Your task to perform on an android device: View the shopping cart on target.com. Add "razer naga" to the cart on target.com Image 0: 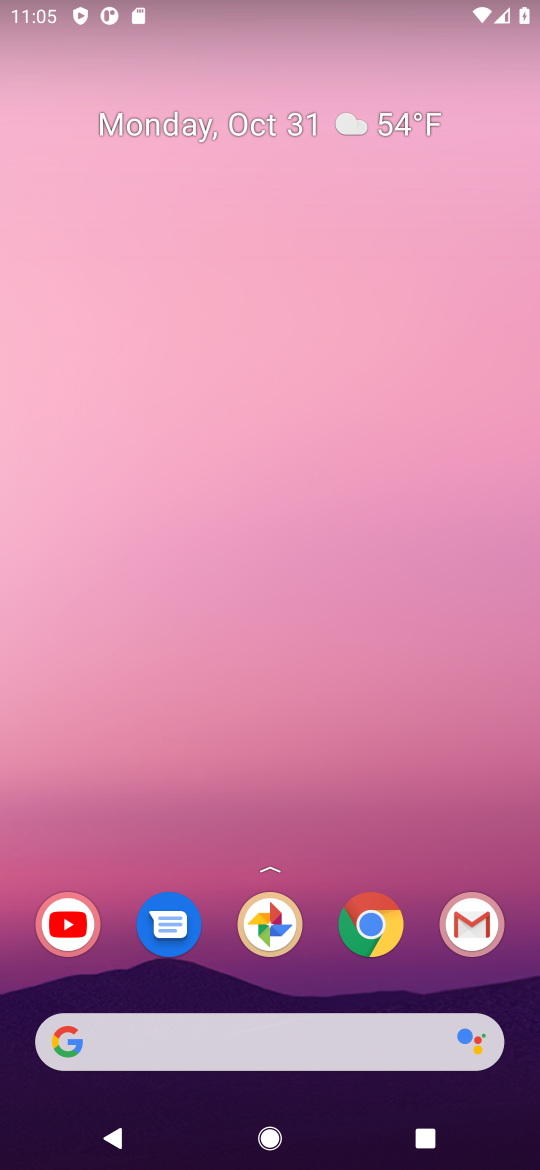
Step 0: press home button
Your task to perform on an android device: View the shopping cart on target.com. Add "razer naga" to the cart on target.com Image 1: 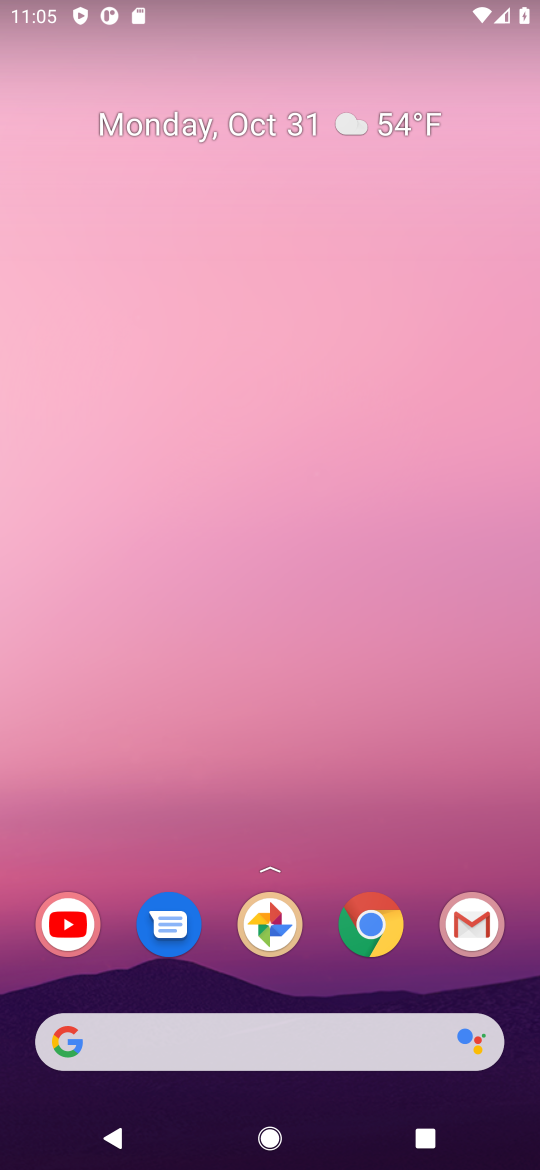
Step 1: click (381, 948)
Your task to perform on an android device: View the shopping cart on target.com. Add "razer naga" to the cart on target.com Image 2: 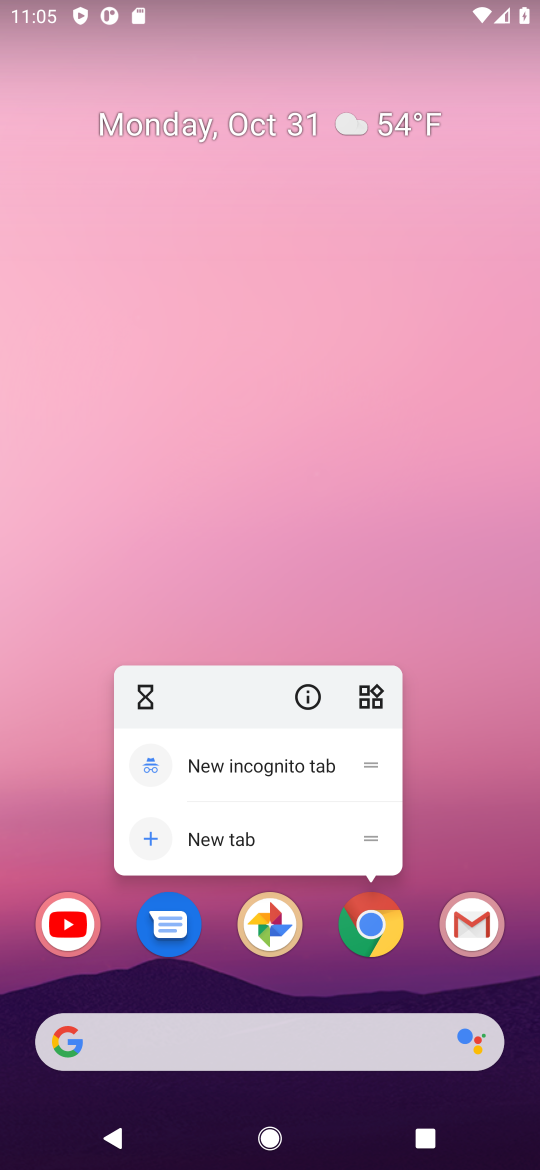
Step 2: click (243, 835)
Your task to perform on an android device: View the shopping cart on target.com. Add "razer naga" to the cart on target.com Image 3: 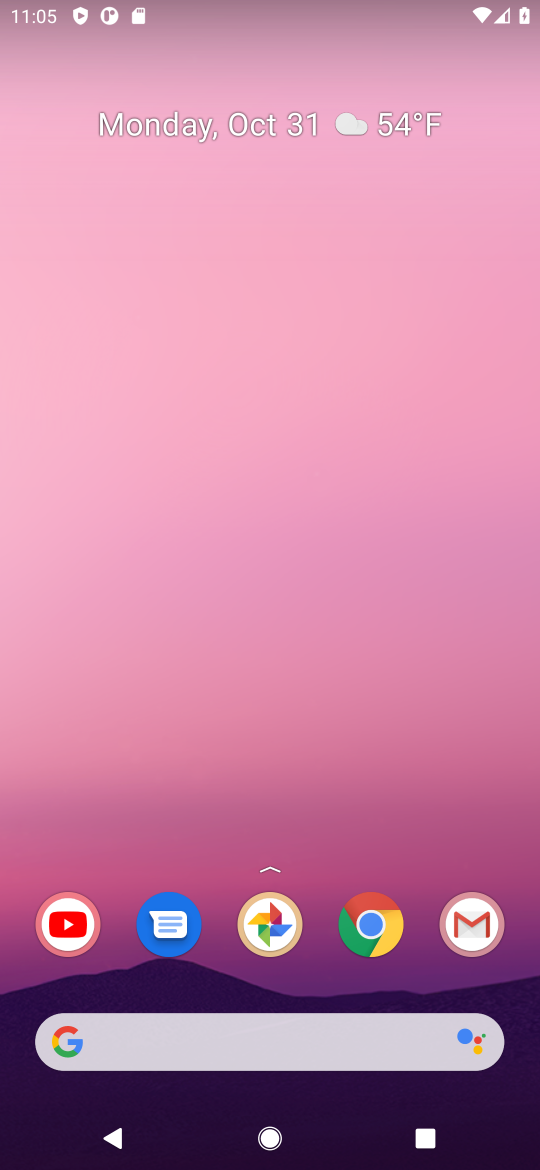
Step 3: click (385, 932)
Your task to perform on an android device: View the shopping cart on target.com. Add "razer naga" to the cart on target.com Image 4: 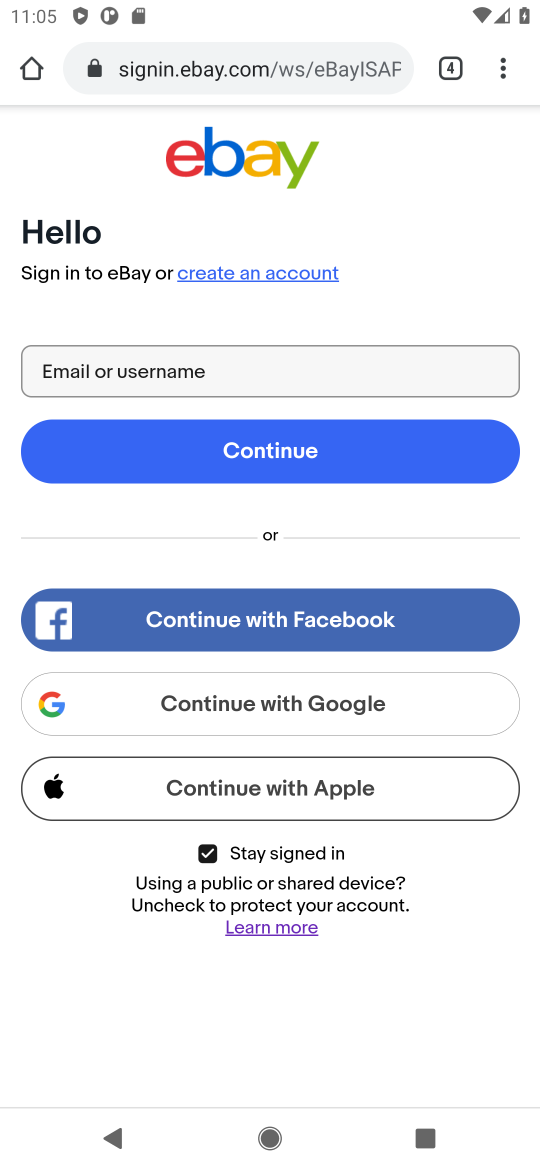
Step 4: click (262, 65)
Your task to perform on an android device: View the shopping cart on target.com. Add "razer naga" to the cart on target.com Image 5: 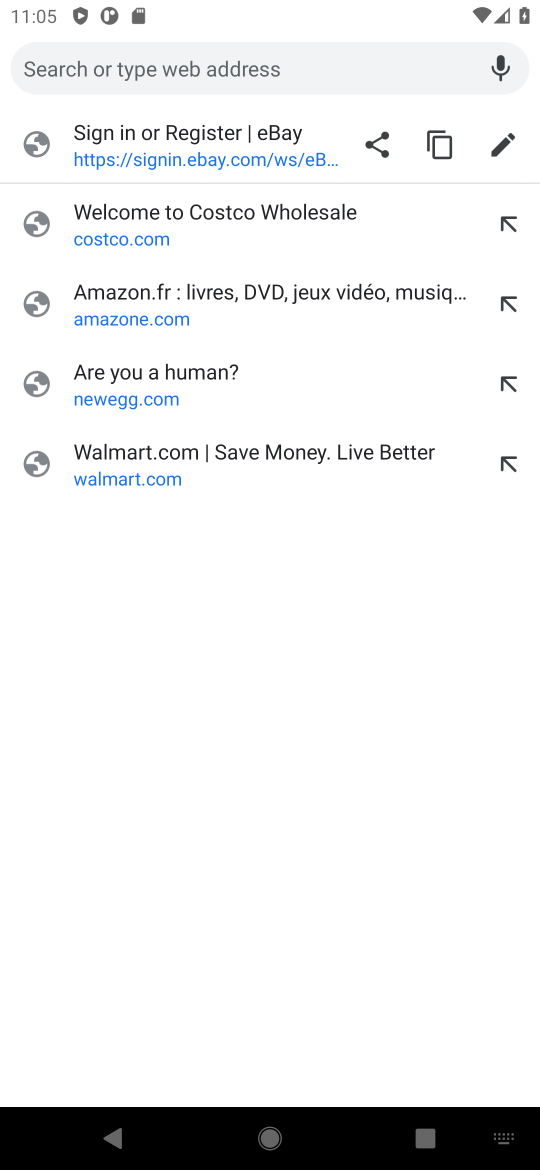
Step 5: type "target.com"
Your task to perform on an android device: View the shopping cart on target.com. Add "razer naga" to the cart on target.com Image 6: 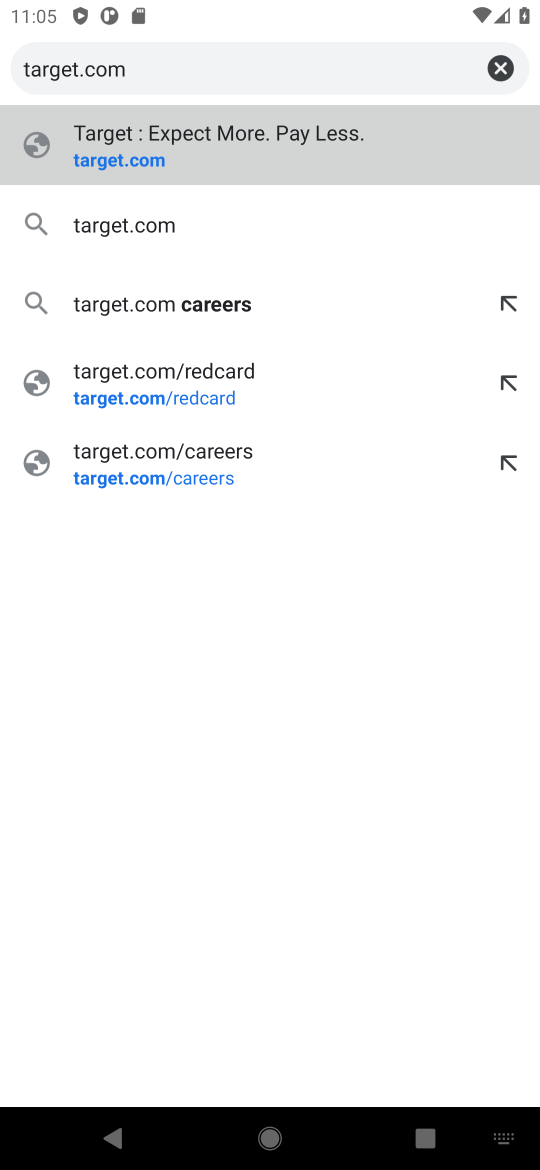
Step 6: type ""
Your task to perform on an android device: View the shopping cart on target.com. Add "razer naga" to the cart on target.com Image 7: 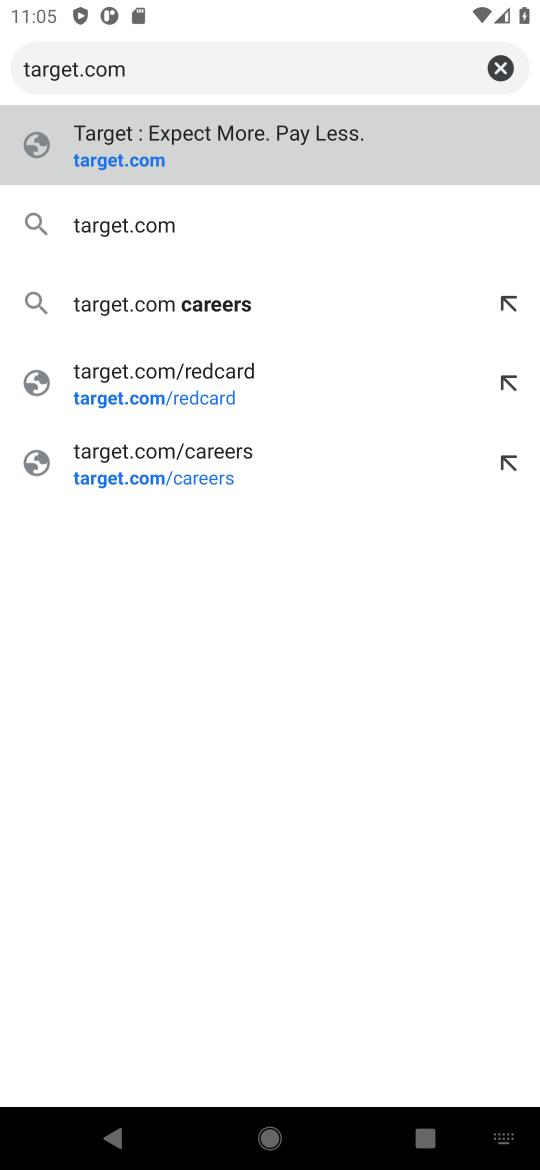
Step 7: click (265, 155)
Your task to perform on an android device: View the shopping cart on target.com. Add "razer naga" to the cart on target.com Image 8: 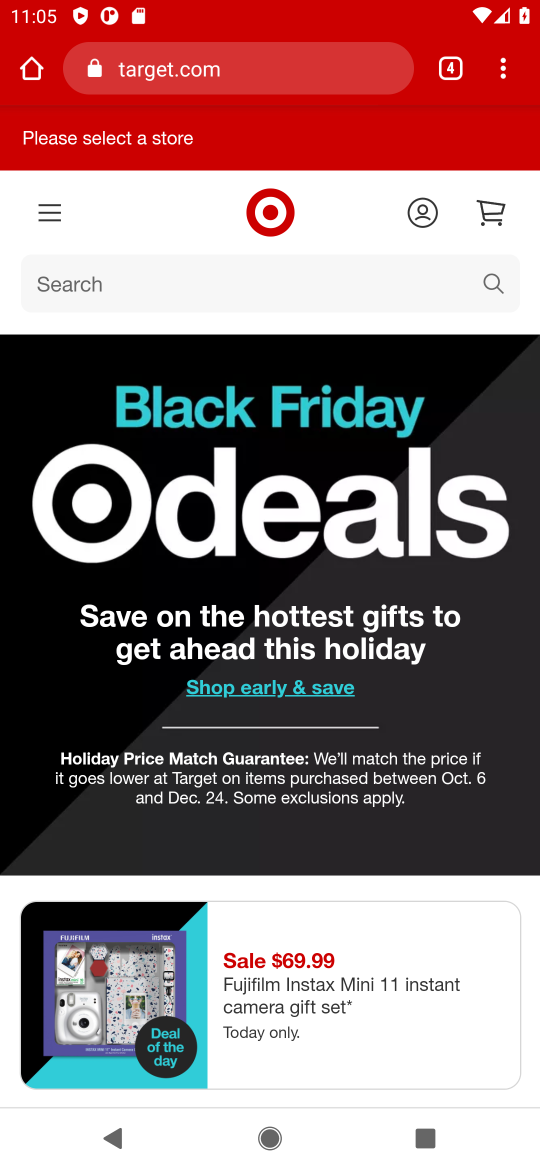
Step 8: click (213, 68)
Your task to perform on an android device: View the shopping cart on target.com. Add "razer naga" to the cart on target.com Image 9: 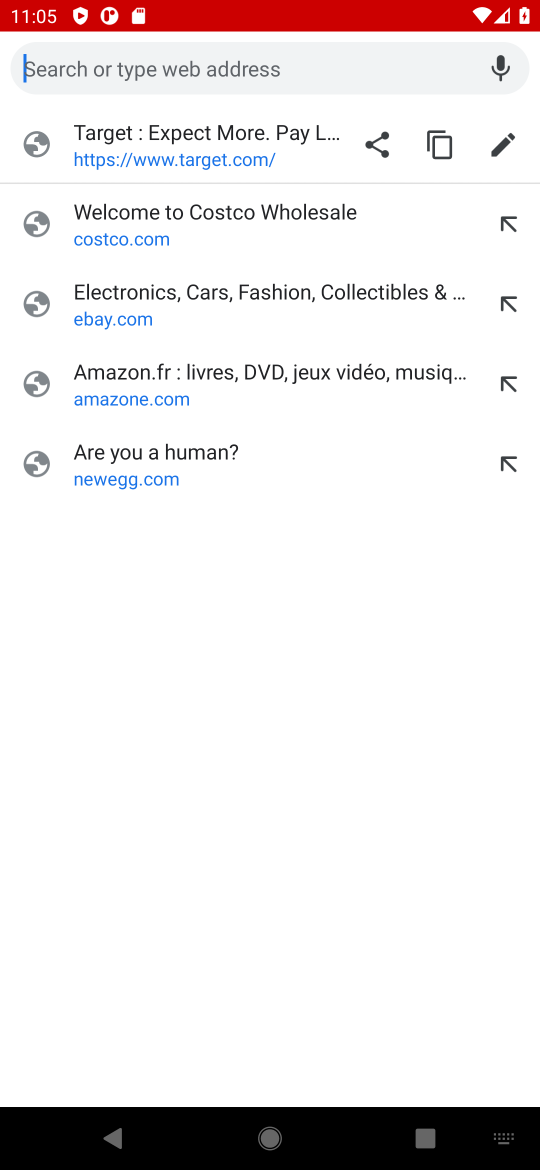
Step 9: type "razer naga"
Your task to perform on an android device: View the shopping cart on target.com. Add "razer naga" to the cart on target.com Image 10: 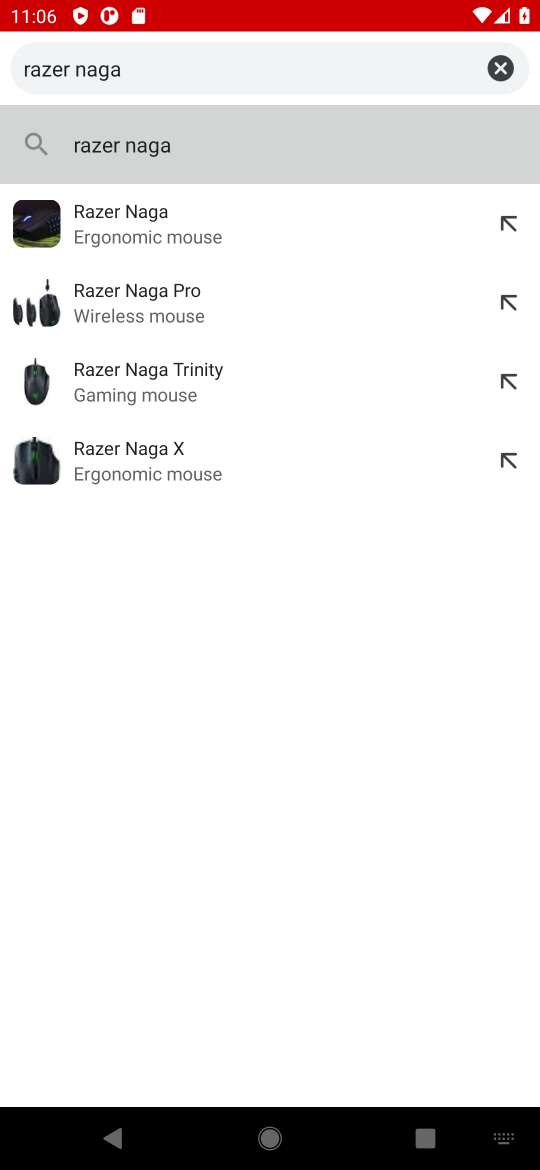
Step 10: click (169, 222)
Your task to perform on an android device: View the shopping cart on target.com. Add "razer naga" to the cart on target.com Image 11: 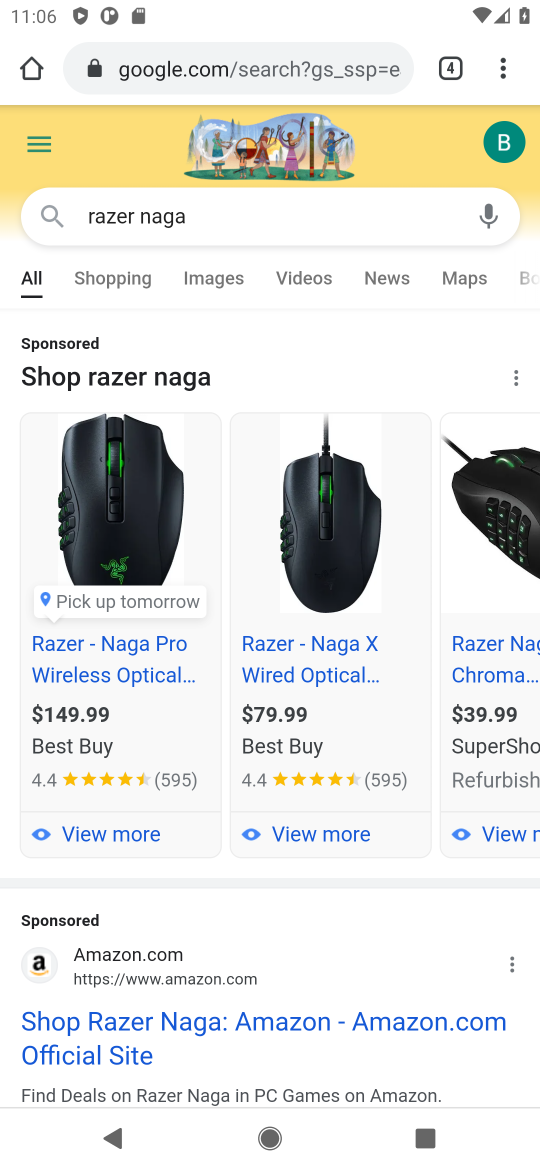
Step 11: press home button
Your task to perform on an android device: View the shopping cart on target.com. Add "razer naga" to the cart on target.com Image 12: 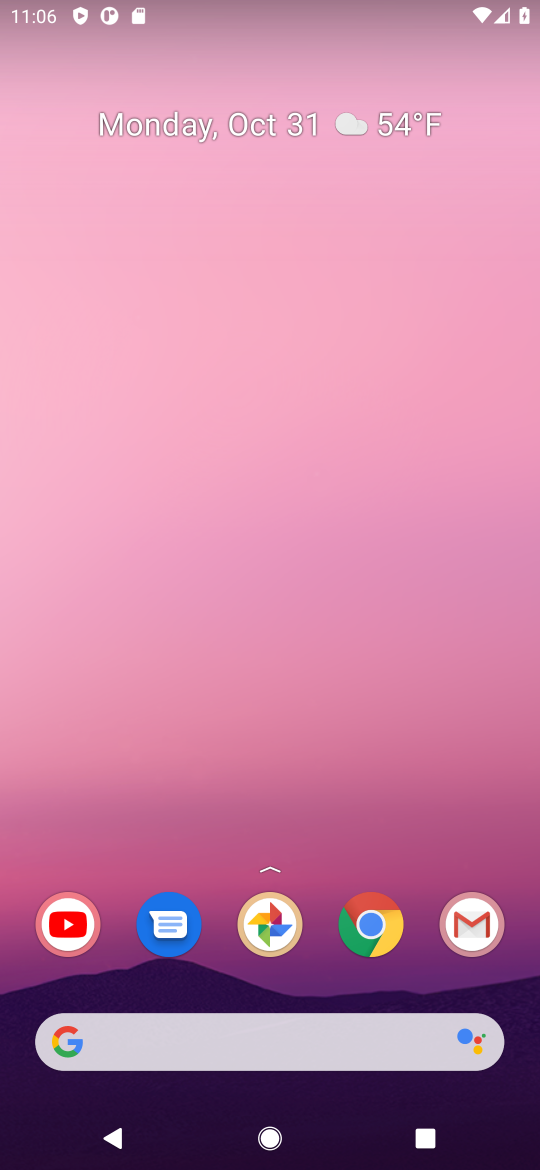
Step 12: click (382, 931)
Your task to perform on an android device: View the shopping cart on target.com. Add "razer naga" to the cart on target.com Image 13: 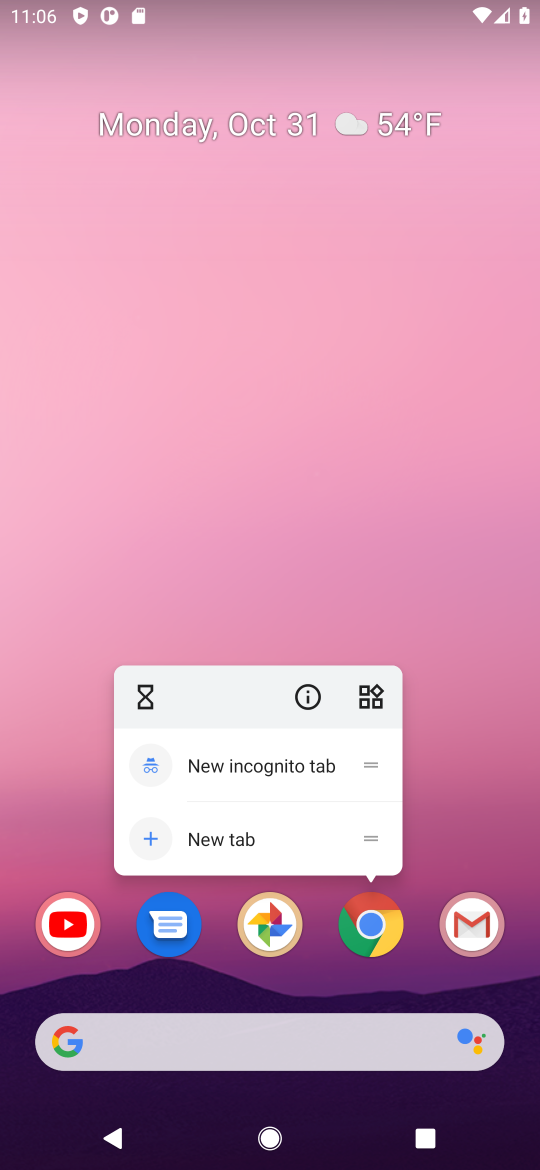
Step 13: click (218, 833)
Your task to perform on an android device: View the shopping cart on target.com. Add "razer naga" to the cart on target.com Image 14: 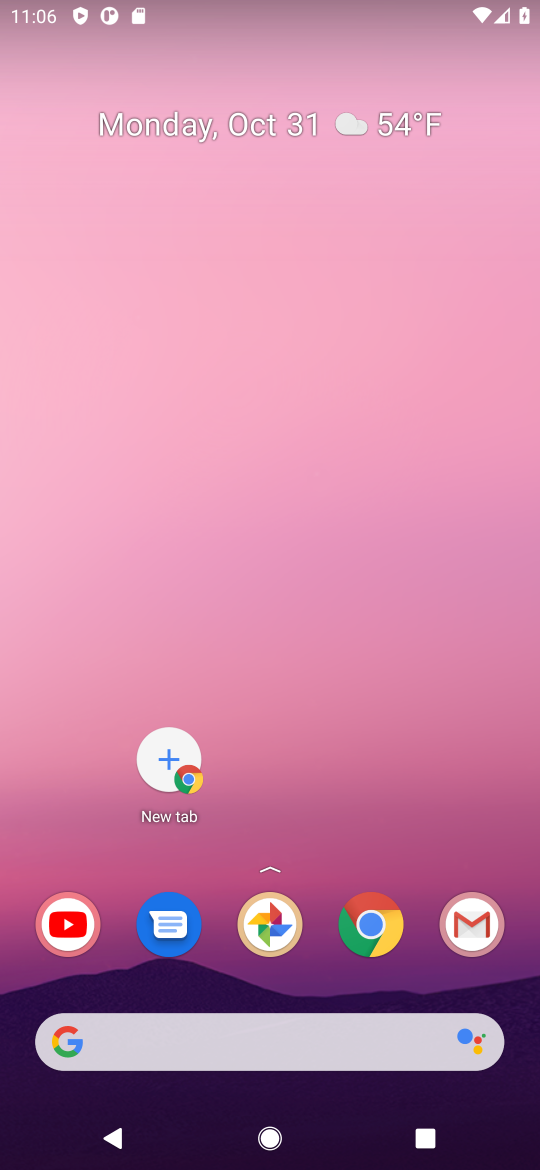
Step 14: click (188, 774)
Your task to perform on an android device: View the shopping cart on target.com. Add "razer naga" to the cart on target.com Image 15: 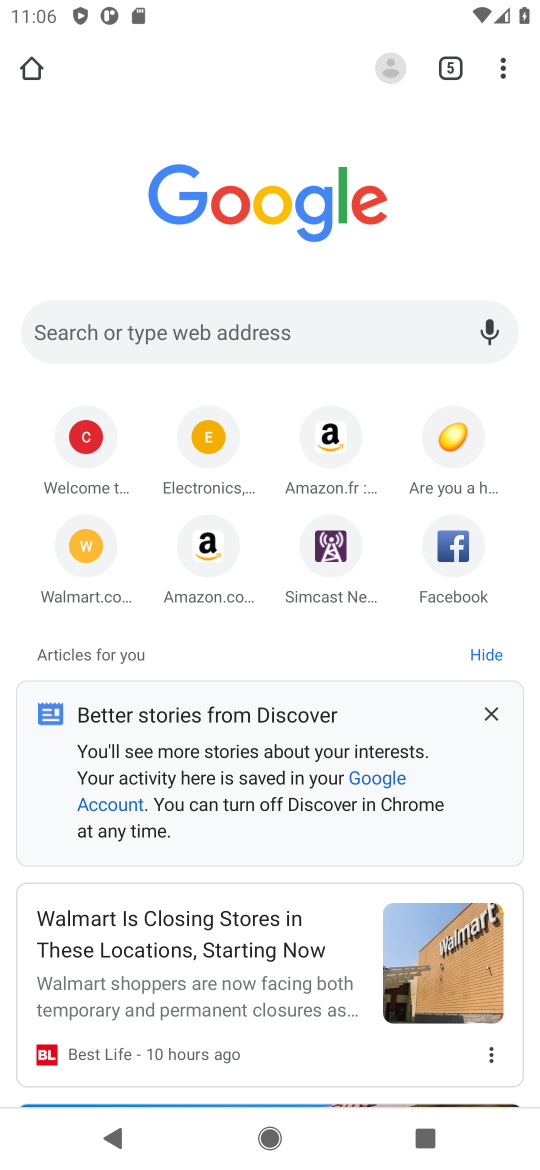
Step 15: click (254, 336)
Your task to perform on an android device: View the shopping cart on target.com. Add "razer naga" to the cart on target.com Image 16: 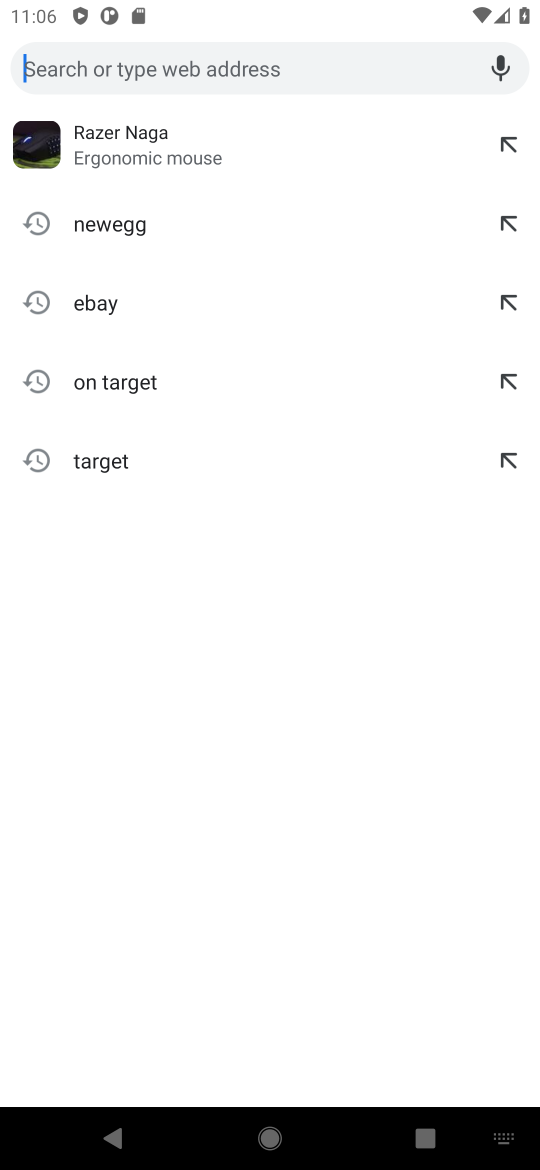
Step 16: type "target.com"
Your task to perform on an android device: View the shopping cart on target.com. Add "razer naga" to the cart on target.com Image 17: 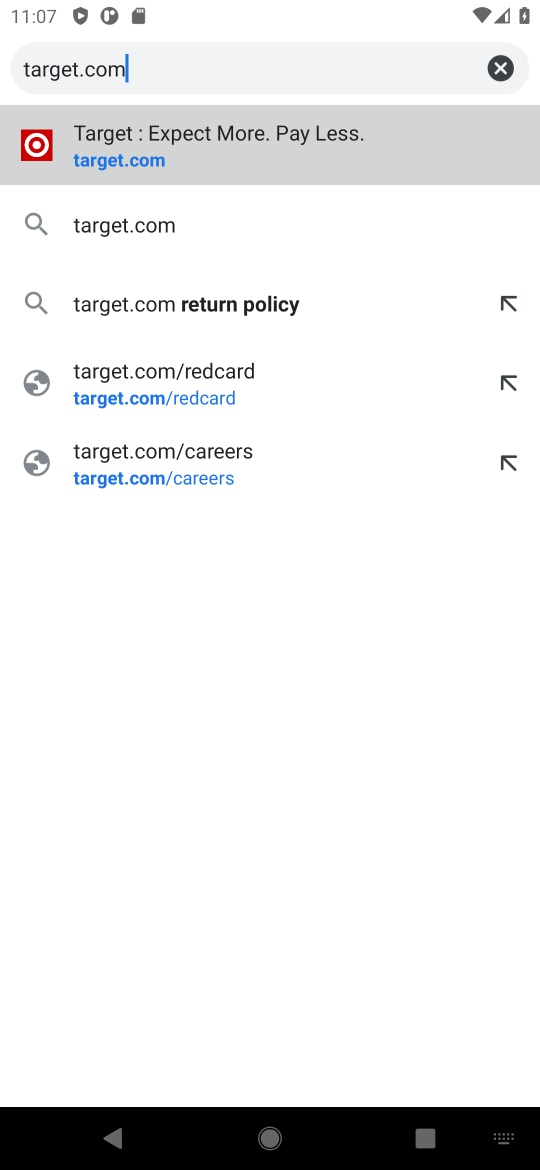
Step 17: click (186, 155)
Your task to perform on an android device: View the shopping cart on target.com. Add "razer naga" to the cart on target.com Image 18: 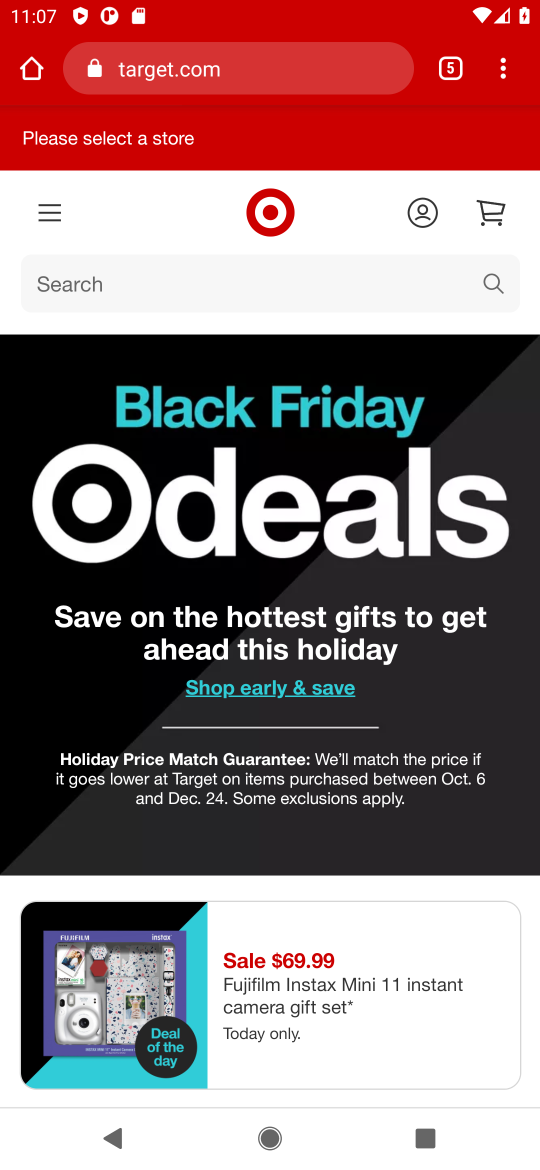
Step 18: click (101, 296)
Your task to perform on an android device: View the shopping cart on target.com. Add "razer naga" to the cart on target.com Image 19: 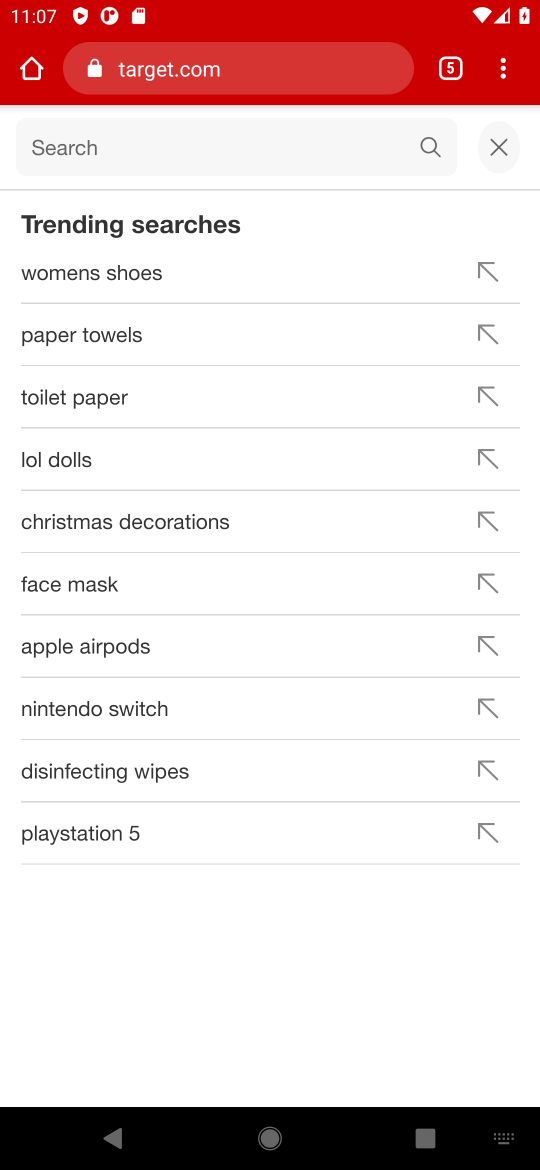
Step 19: type "razer naga"
Your task to perform on an android device: View the shopping cart on target.com. Add "razer naga" to the cart on target.com Image 20: 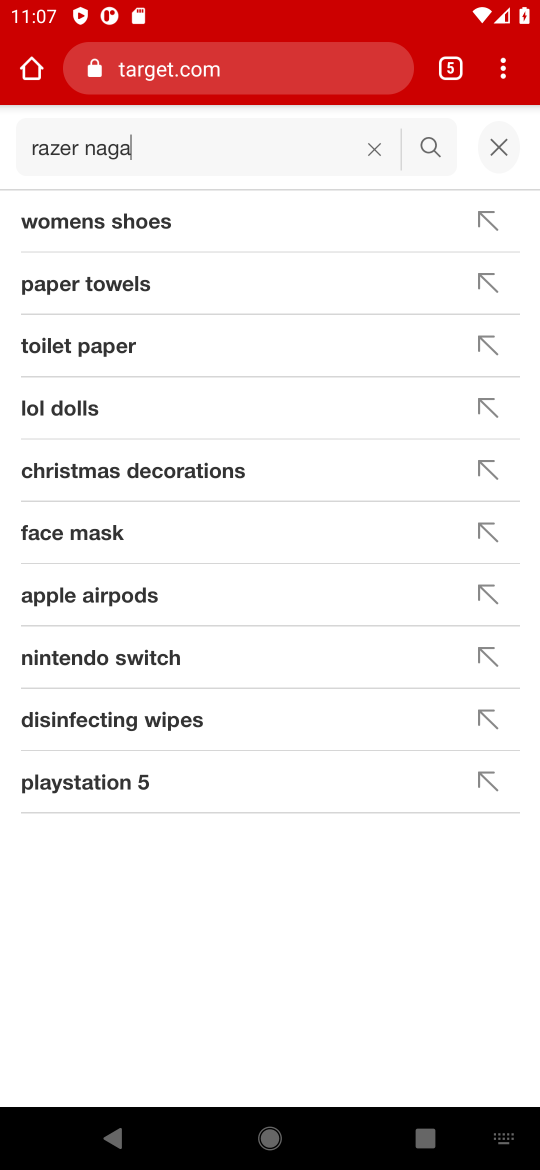
Step 20: type ""
Your task to perform on an android device: View the shopping cart on target.com. Add "razer naga" to the cart on target.com Image 21: 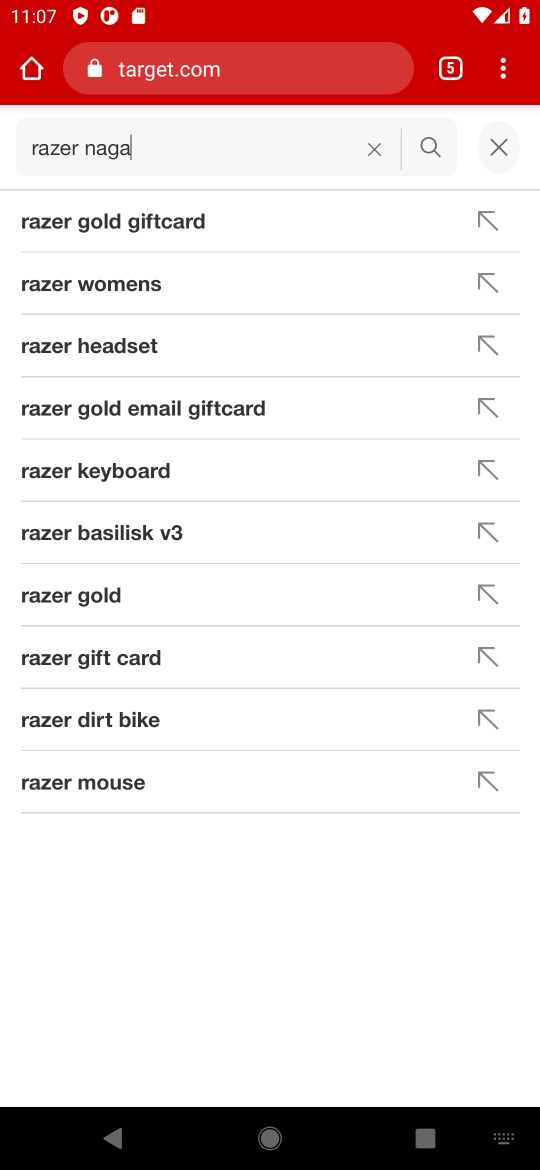
Step 21: click (140, 236)
Your task to perform on an android device: View the shopping cart on target.com. Add "razer naga" to the cart on target.com Image 22: 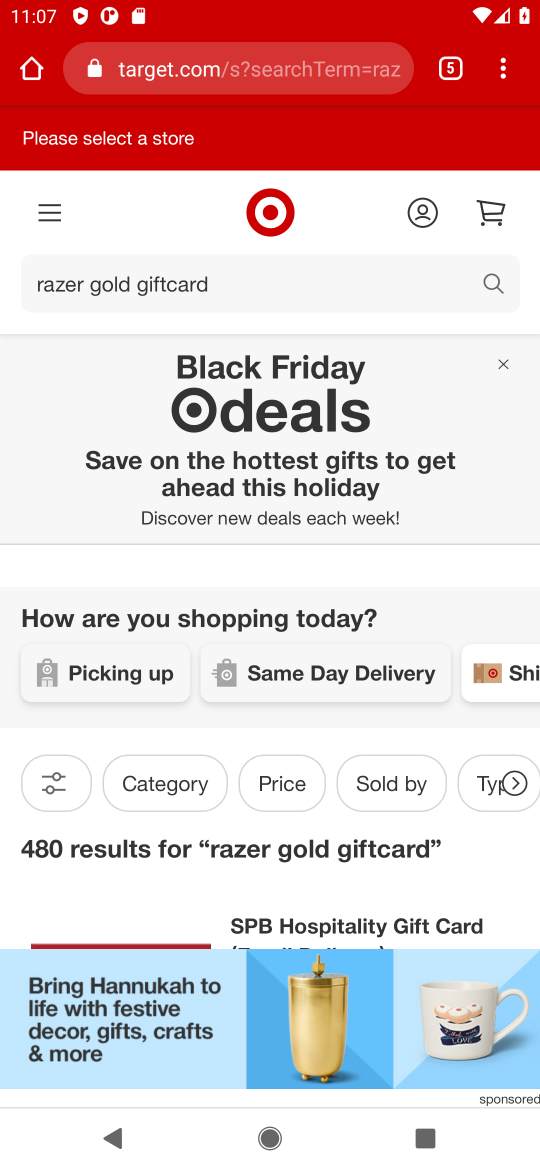
Step 22: drag from (309, 781) to (379, 421)
Your task to perform on an android device: View the shopping cart on target.com. Add "razer naga" to the cart on target.com Image 23: 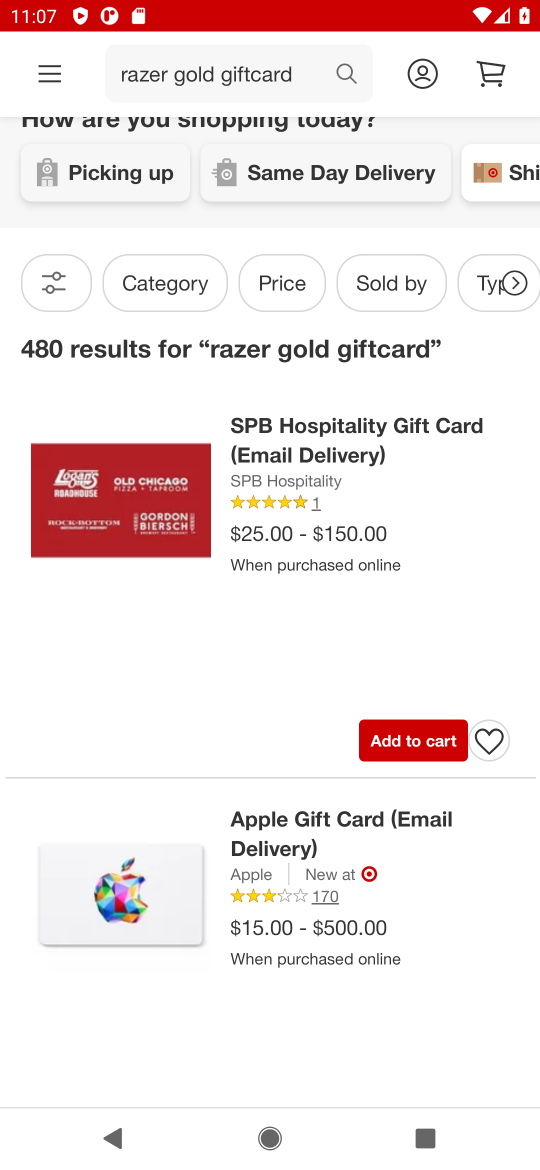
Step 23: drag from (306, 596) to (331, 342)
Your task to perform on an android device: View the shopping cart on target.com. Add "razer naga" to the cart on target.com Image 24: 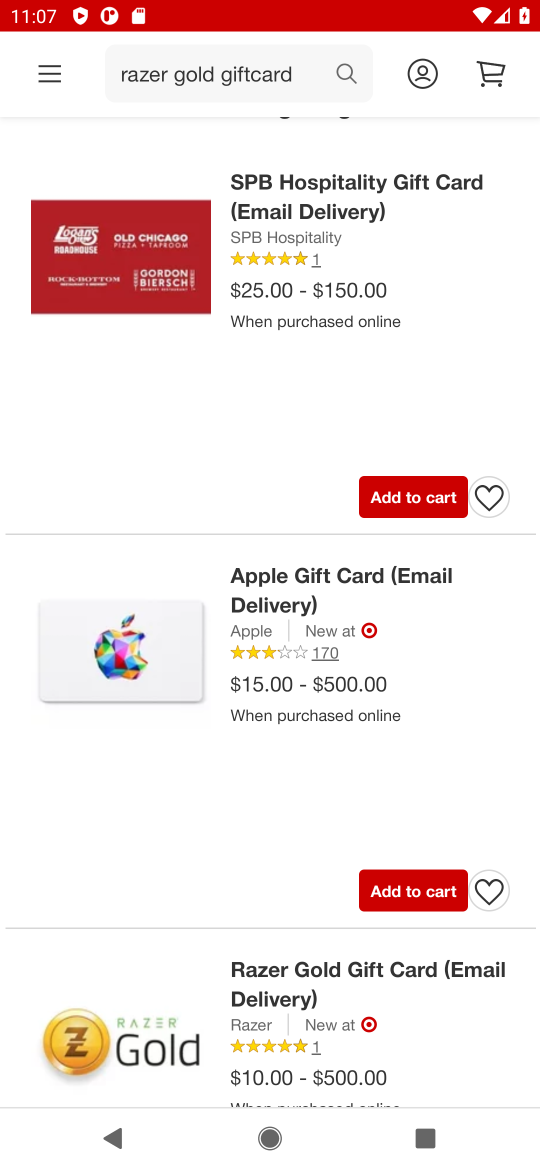
Step 24: drag from (249, 770) to (286, 512)
Your task to perform on an android device: View the shopping cart on target.com. Add "razer naga" to the cart on target.com Image 25: 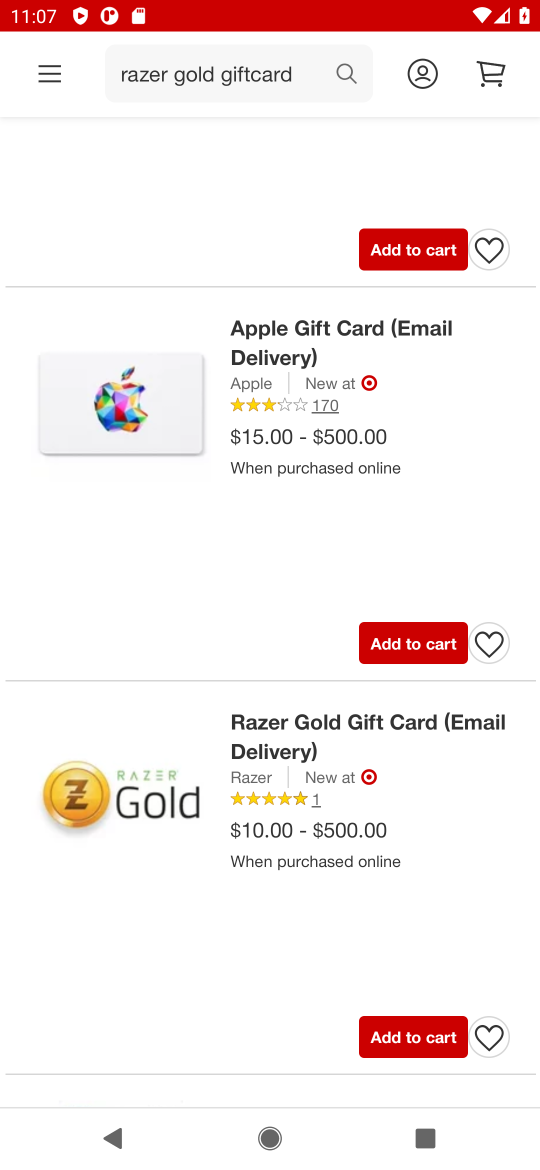
Step 25: drag from (286, 872) to (353, 649)
Your task to perform on an android device: View the shopping cart on target.com. Add "razer naga" to the cart on target.com Image 26: 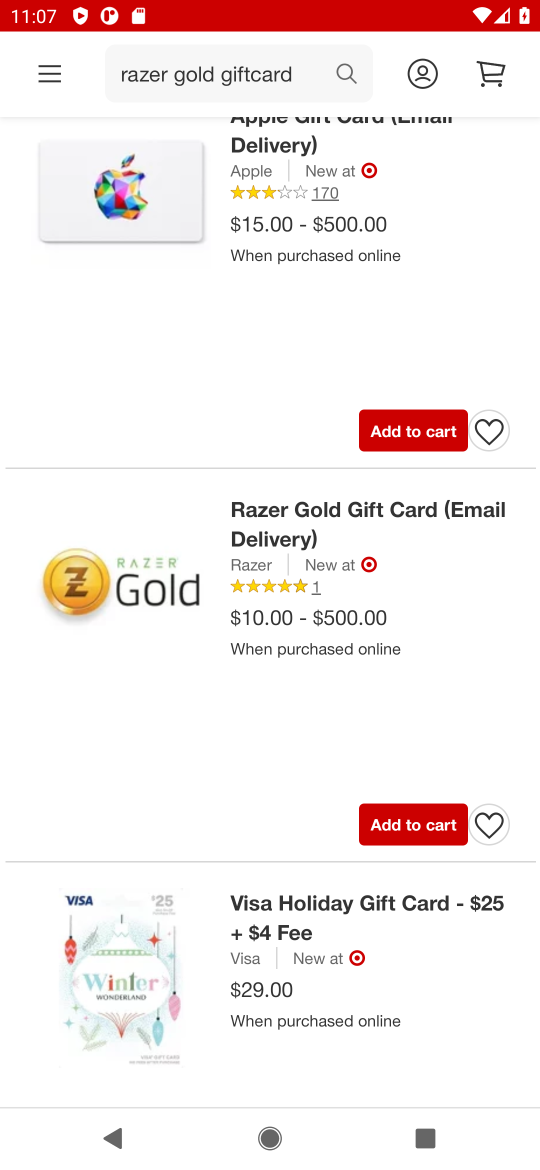
Step 26: click (294, 73)
Your task to perform on an android device: View the shopping cart on target.com. Add "razer naga" to the cart on target.com Image 27: 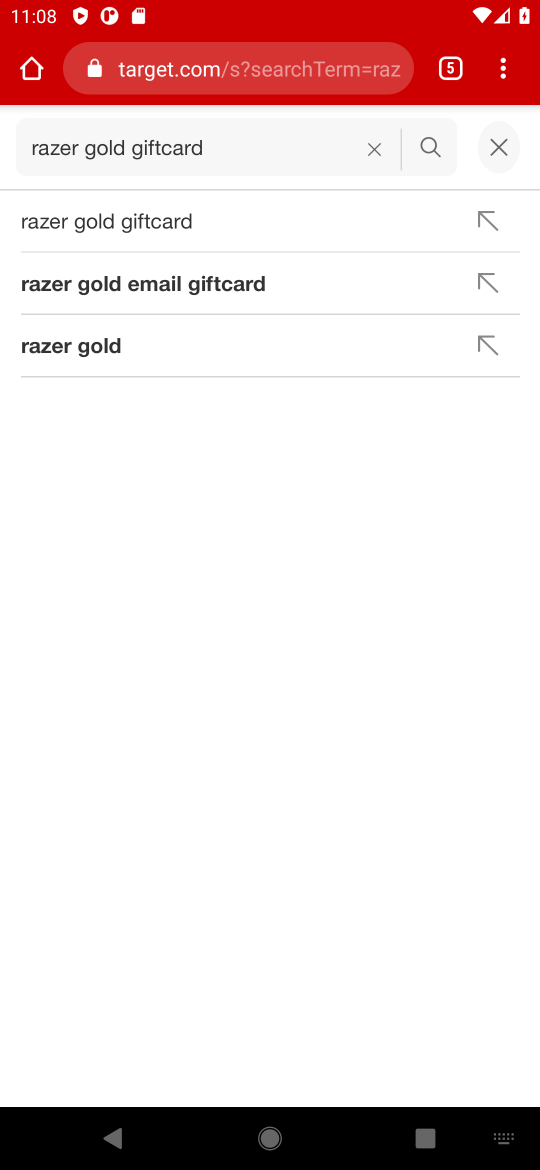
Step 27: click (499, 157)
Your task to perform on an android device: View the shopping cart on target.com. Add "razer naga" to the cart on target.com Image 28: 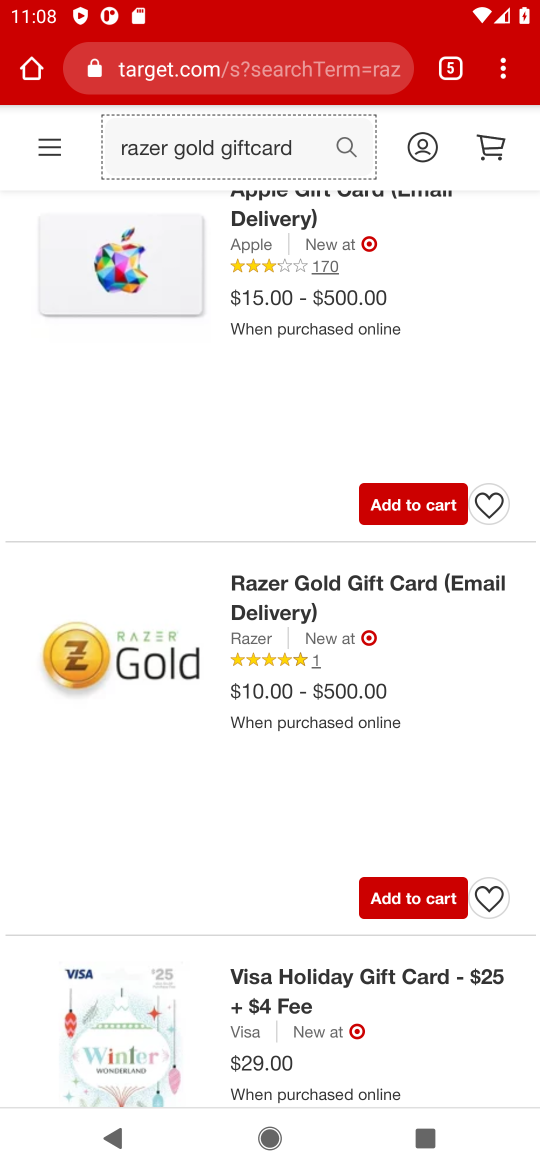
Step 28: drag from (286, 550) to (292, 139)
Your task to perform on an android device: View the shopping cart on target.com. Add "razer naga" to the cart on target.com Image 29: 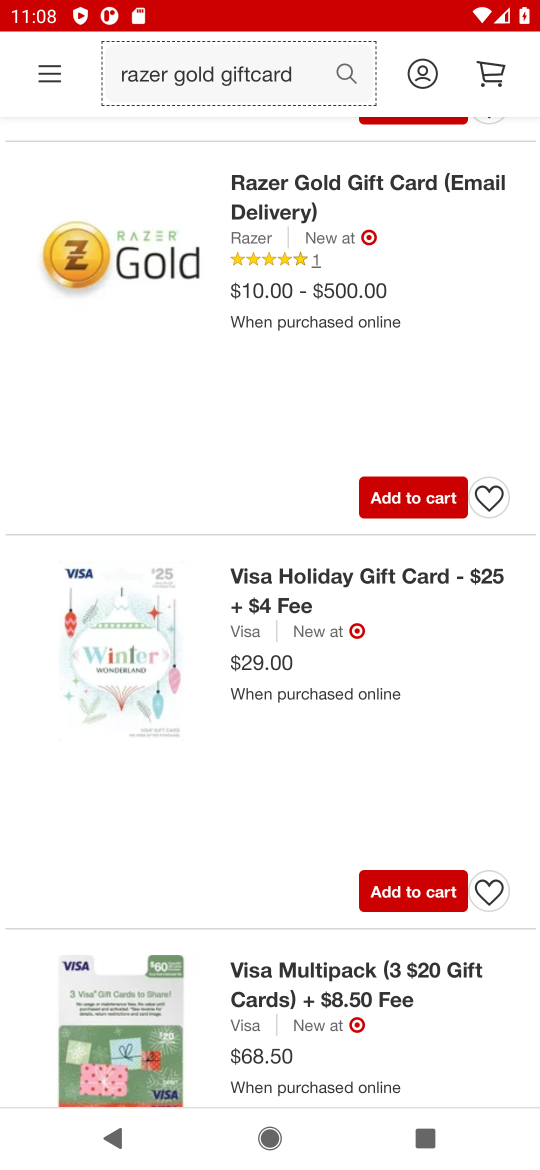
Step 29: drag from (232, 211) to (238, 708)
Your task to perform on an android device: View the shopping cart on target.com. Add "razer naga" to the cart on target.com Image 30: 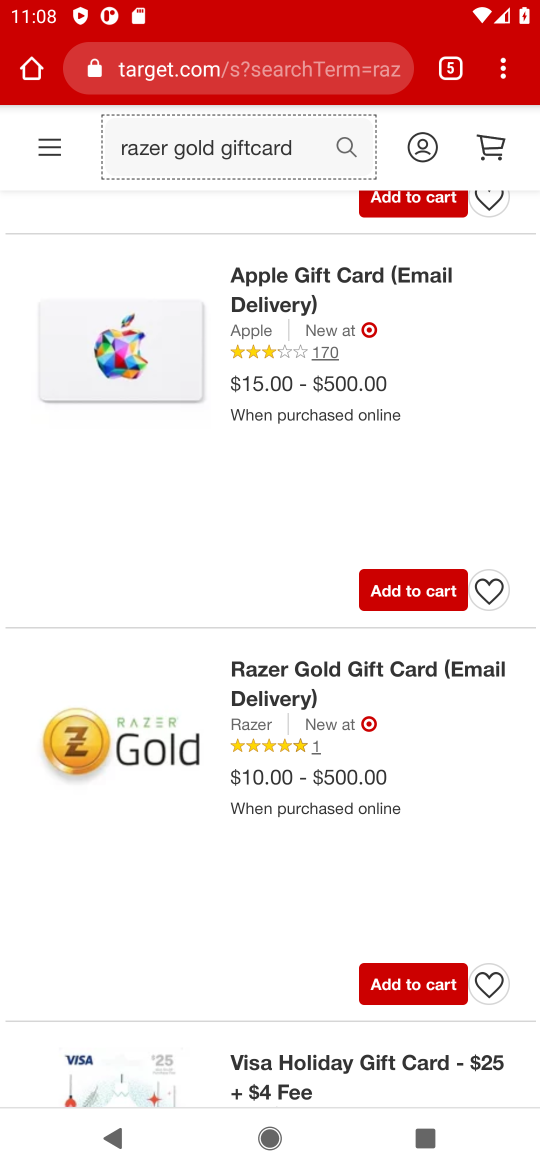
Step 30: click (227, 144)
Your task to perform on an android device: View the shopping cart on target.com. Add "razer naga" to the cart on target.com Image 31: 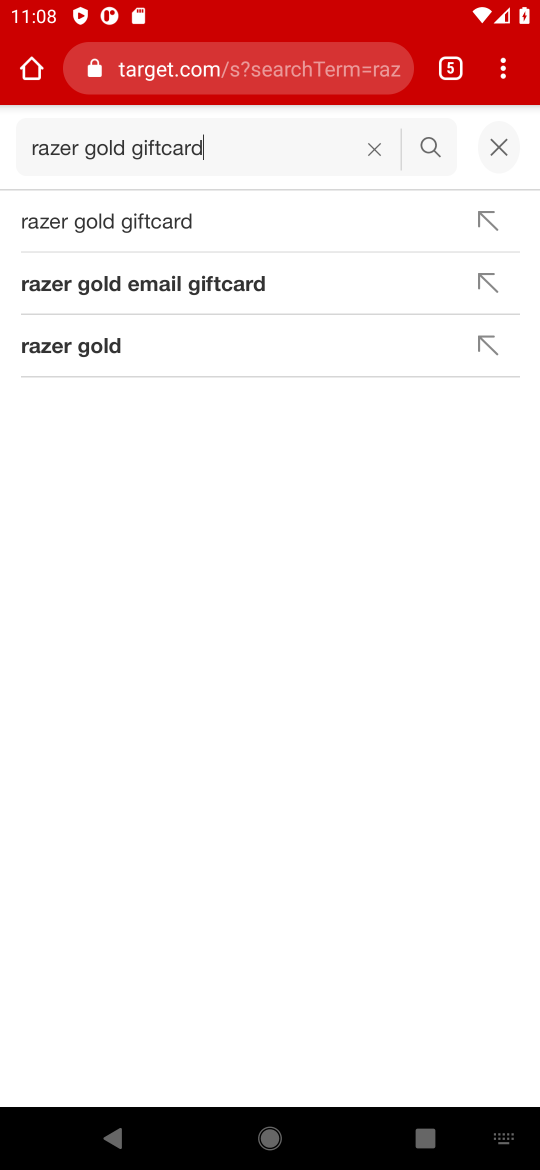
Step 31: click (375, 147)
Your task to perform on an android device: View the shopping cart on target.com. Add "razer naga" to the cart on target.com Image 32: 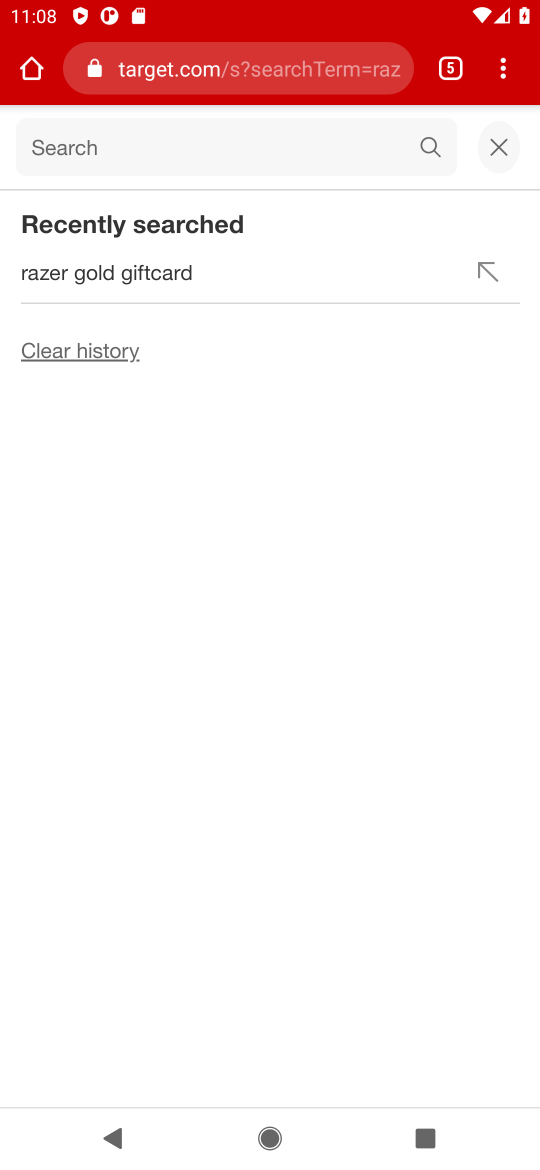
Step 32: type "razer naga"
Your task to perform on an android device: View the shopping cart on target.com. Add "razer naga" to the cart on target.com Image 33: 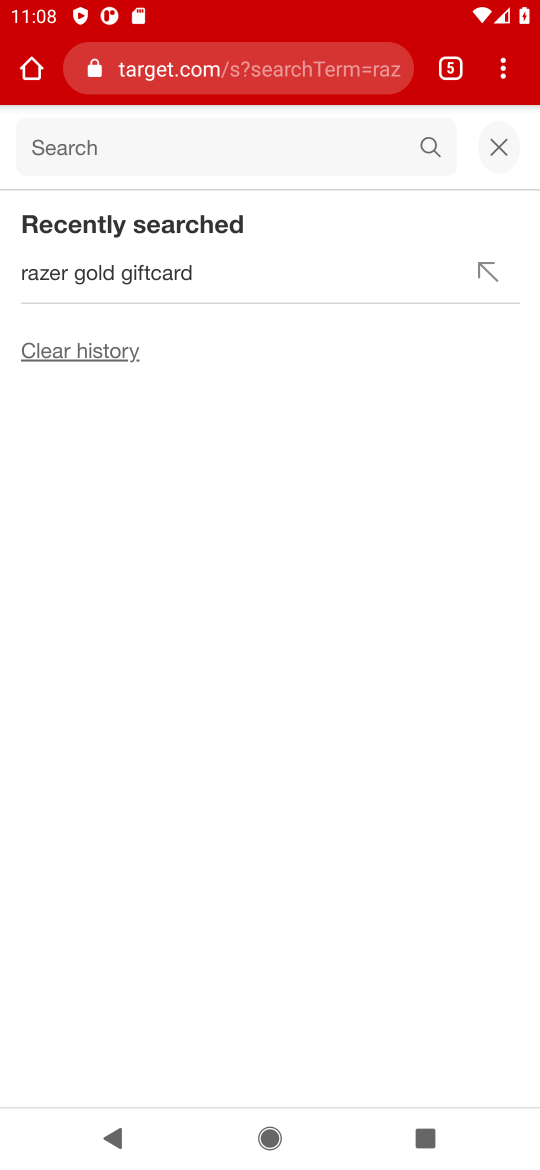
Step 33: click (217, 144)
Your task to perform on an android device: View the shopping cart on target.com. Add "razer naga" to the cart on target.com Image 34: 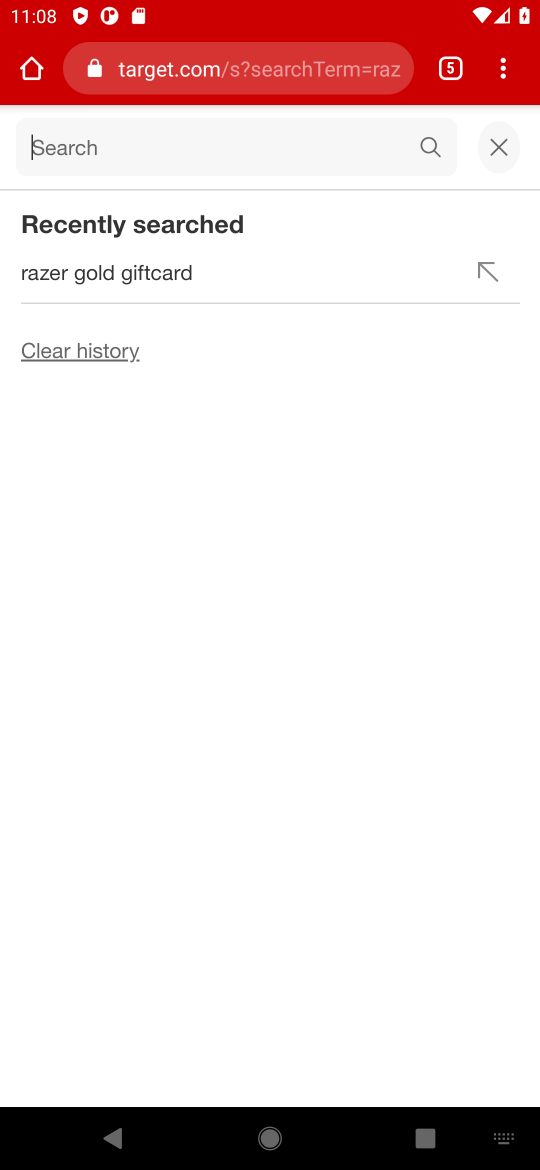
Step 34: click (100, 347)
Your task to perform on an android device: View the shopping cart on target.com. Add "razer naga" to the cart on target.com Image 35: 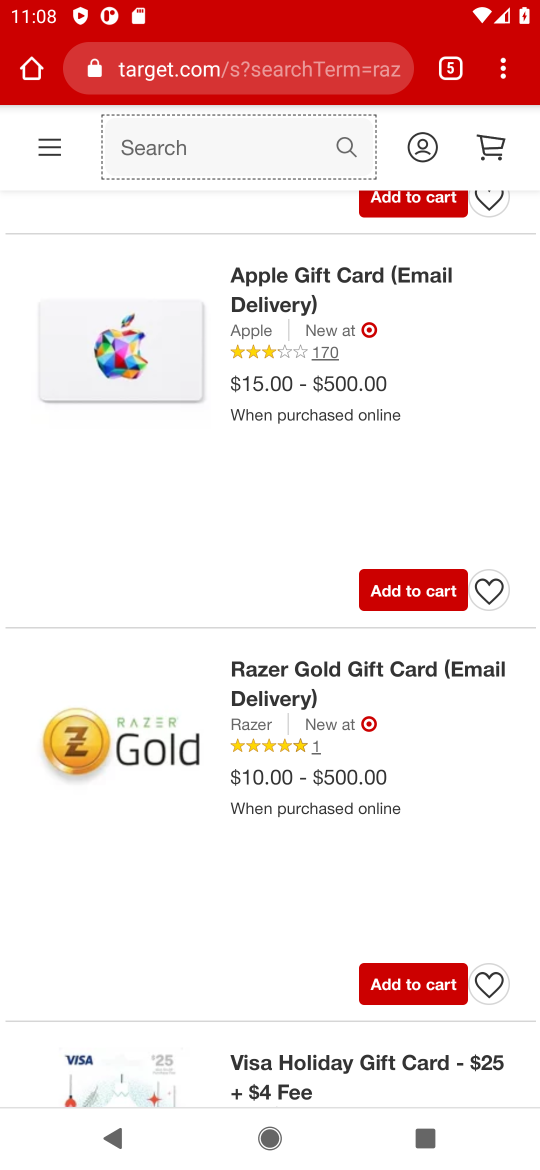
Step 35: click (234, 132)
Your task to perform on an android device: View the shopping cart on target.com. Add "razer naga" to the cart on target.com Image 36: 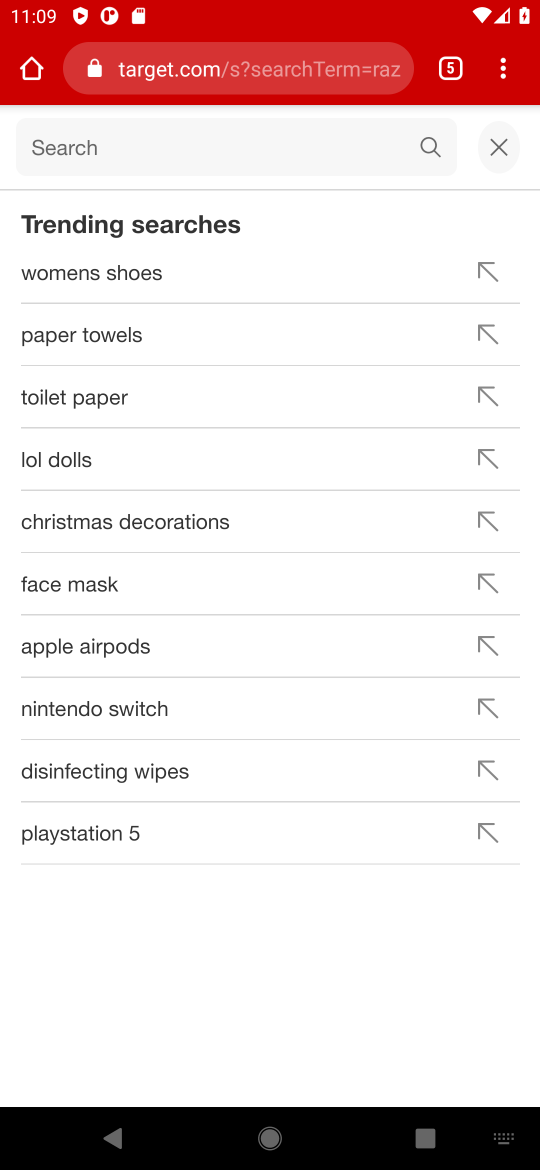
Step 36: type "razer naga"
Your task to perform on an android device: View the shopping cart on target.com. Add "razer naga" to the cart on target.com Image 37: 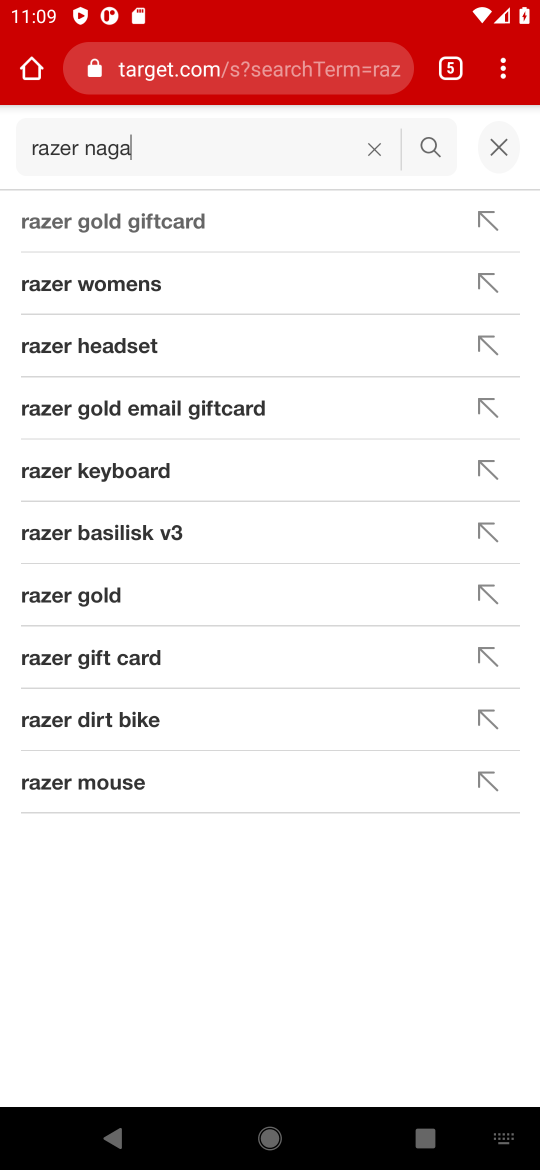
Step 37: type ""
Your task to perform on an android device: View the shopping cart on target.com. Add "razer naga" to the cart on target.com Image 38: 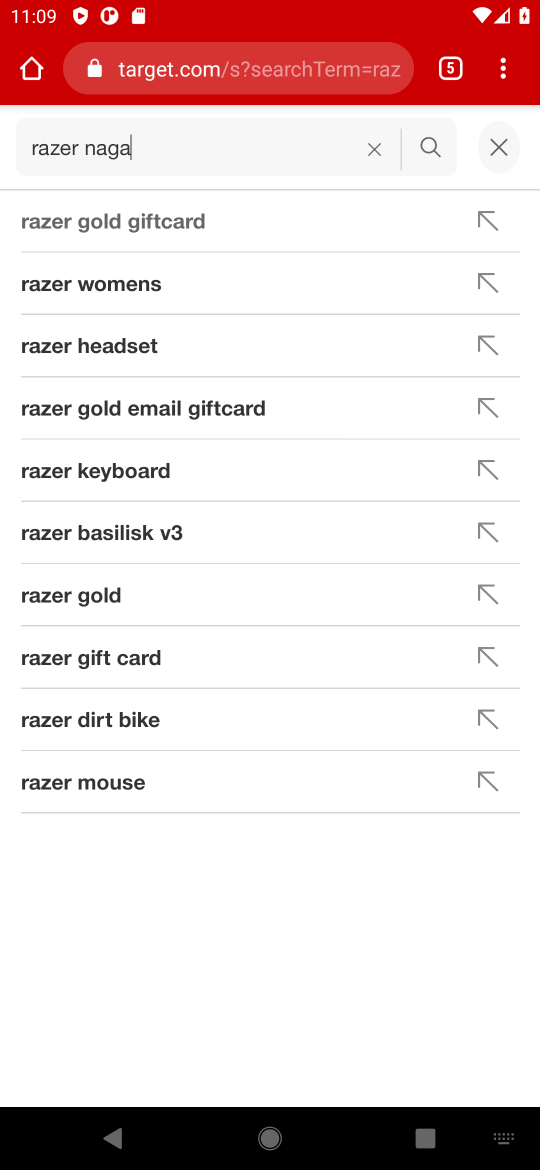
Step 38: click (195, 349)
Your task to perform on an android device: View the shopping cart on target.com. Add "razer naga" to the cart on target.com Image 39: 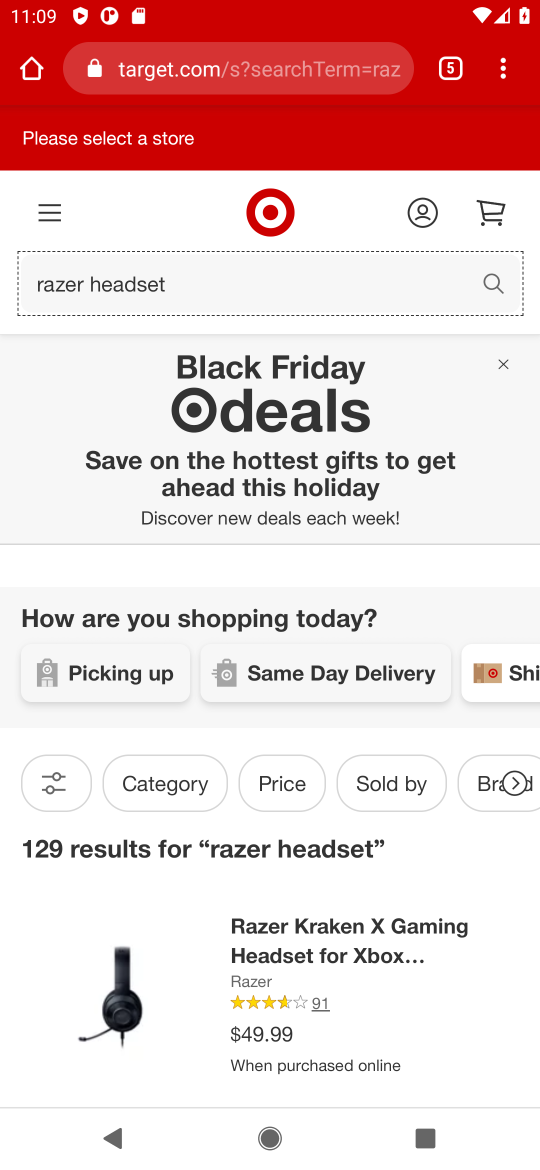
Step 39: drag from (286, 743) to (349, 452)
Your task to perform on an android device: View the shopping cart on target.com. Add "razer naga" to the cart on target.com Image 40: 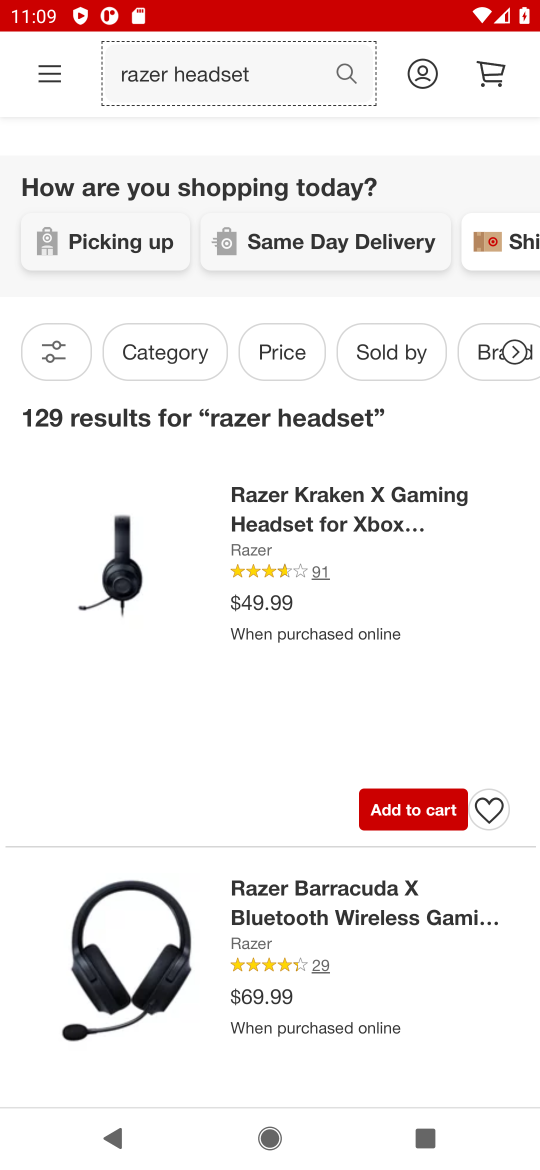
Step 40: click (310, 519)
Your task to perform on an android device: View the shopping cart on target.com. Add "razer naga" to the cart on target.com Image 41: 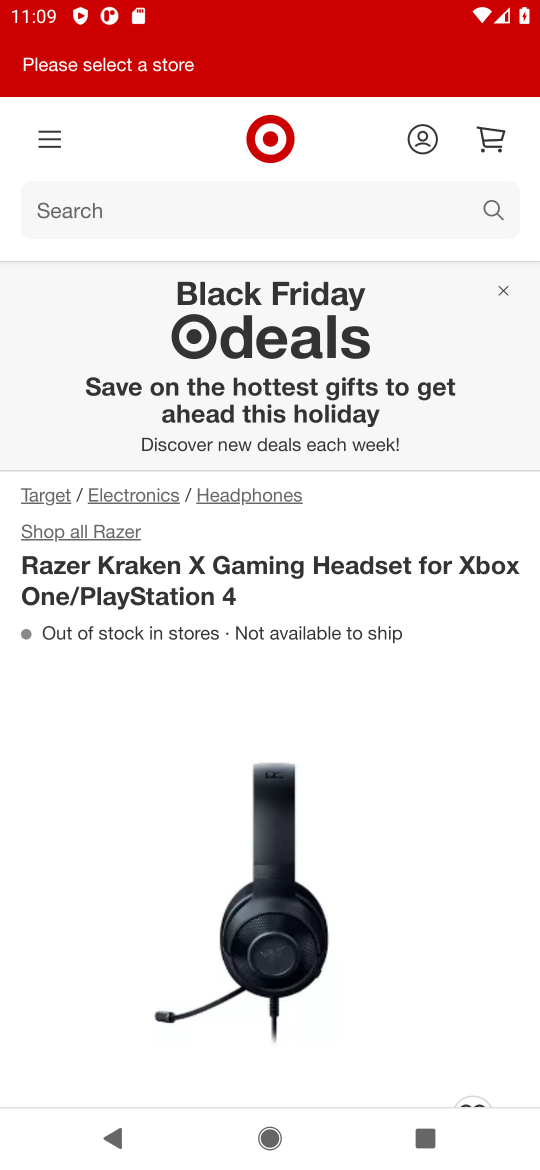
Step 41: drag from (290, 766) to (357, 450)
Your task to perform on an android device: View the shopping cart on target.com. Add "razer naga" to the cart on target.com Image 42: 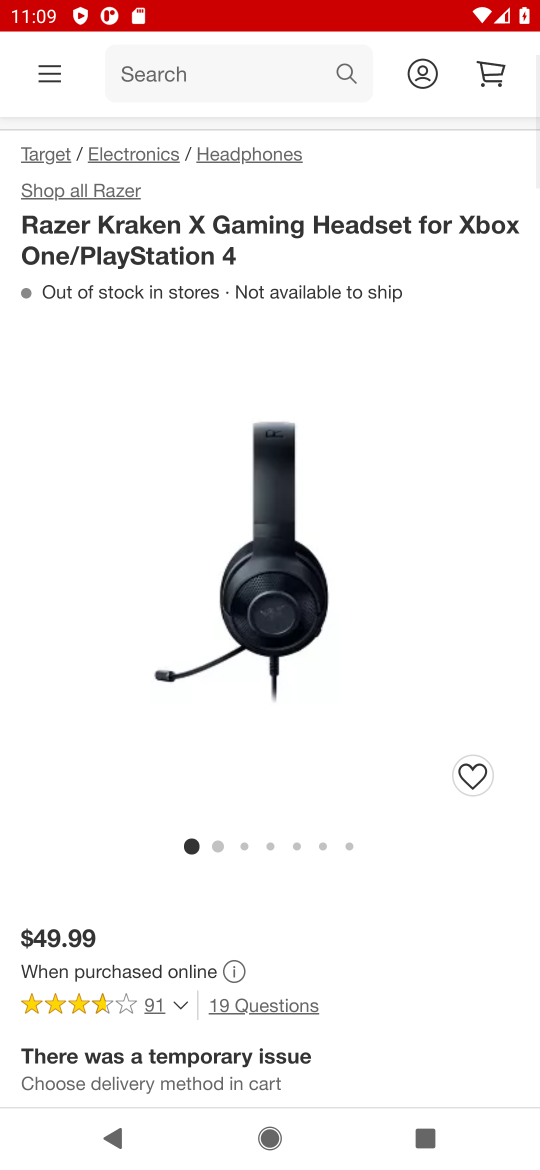
Step 42: drag from (268, 795) to (353, 428)
Your task to perform on an android device: View the shopping cart on target.com. Add "razer naga" to the cart on target.com Image 43: 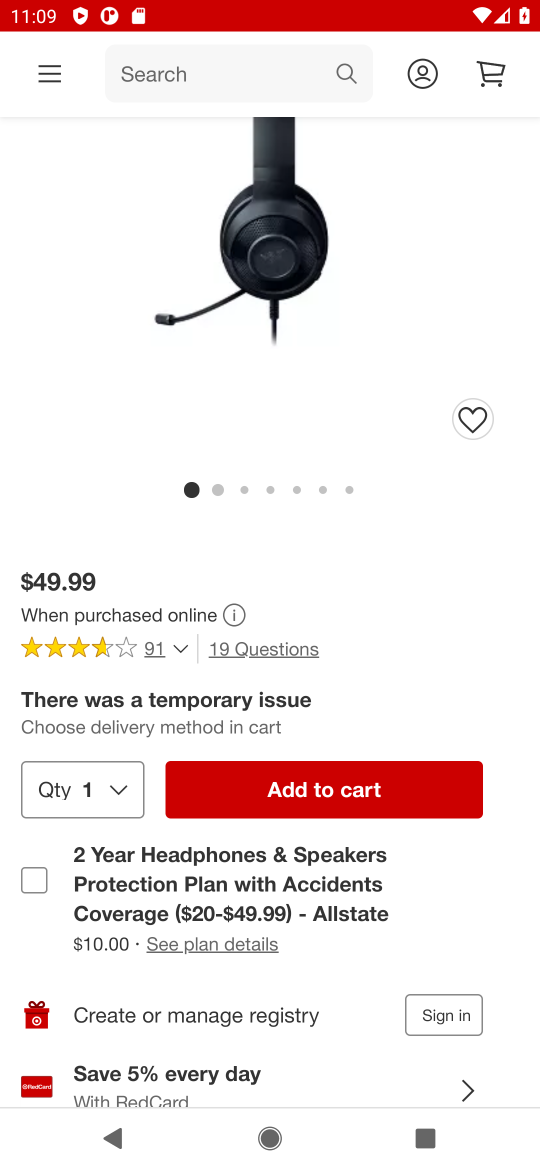
Step 43: click (321, 799)
Your task to perform on an android device: View the shopping cart on target.com. Add "razer naga" to the cart on target.com Image 44: 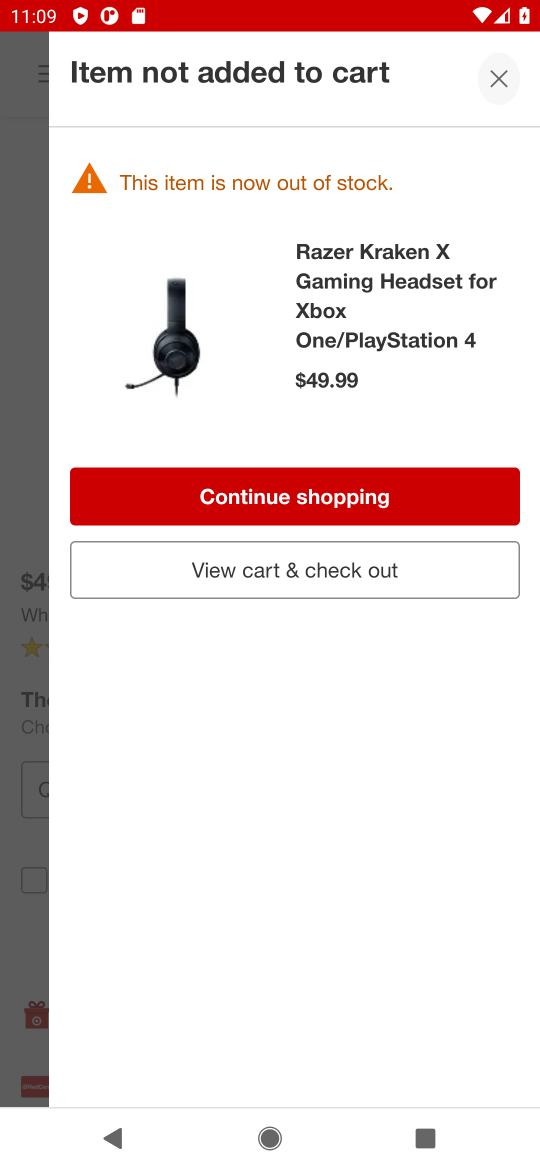
Step 44: click (496, 67)
Your task to perform on an android device: View the shopping cart on target.com. Add "razer naga" to the cart on target.com Image 45: 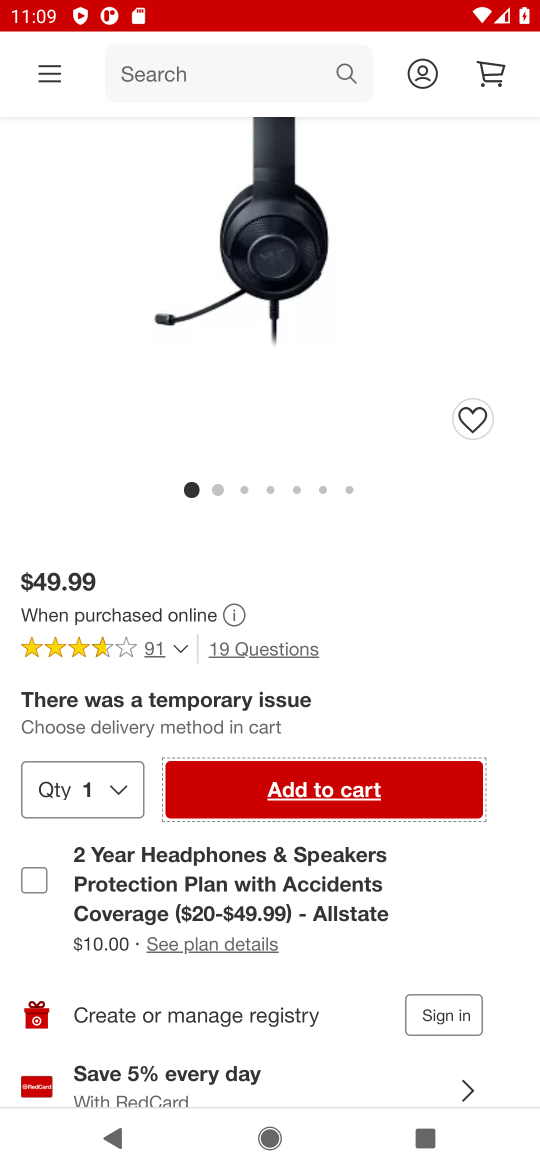
Step 45: click (493, 75)
Your task to perform on an android device: View the shopping cart on target.com. Add "razer naga" to the cart on target.com Image 46: 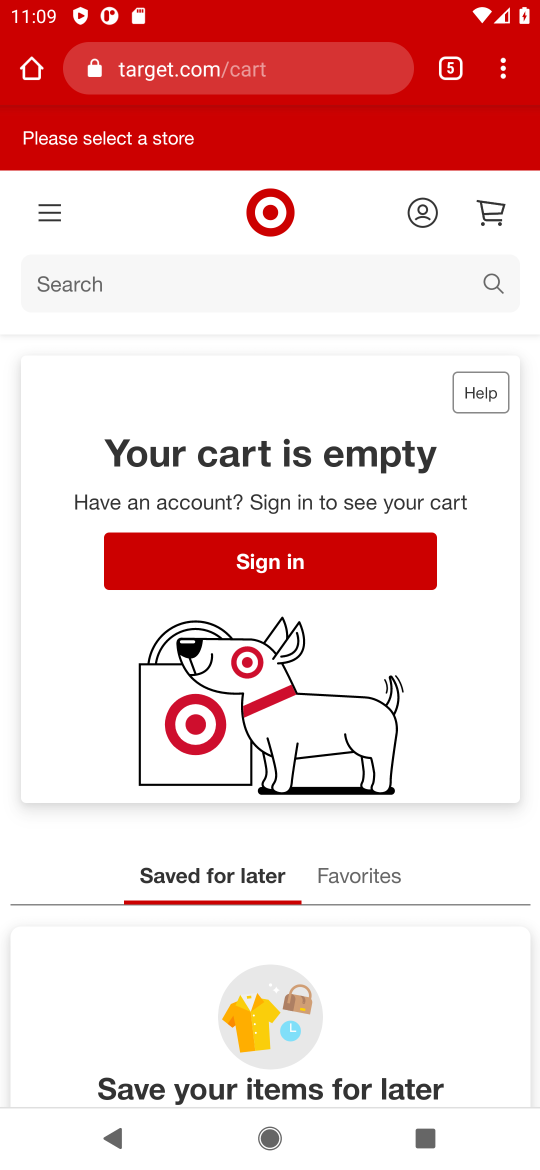
Step 46: press back button
Your task to perform on an android device: View the shopping cart on target.com. Add "razer naga" to the cart on target.com Image 47: 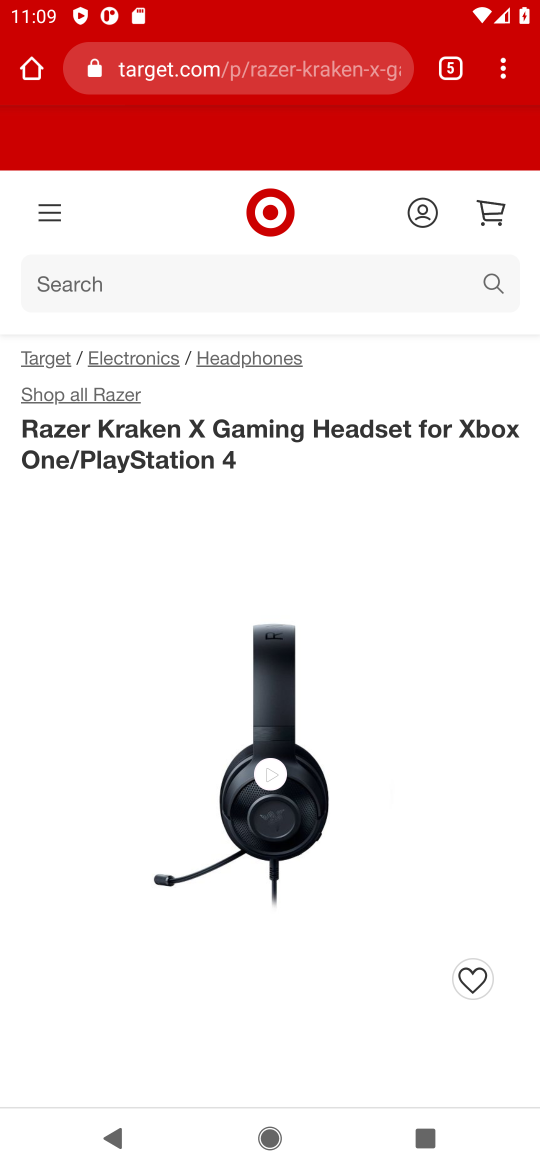
Step 47: drag from (238, 776) to (279, 442)
Your task to perform on an android device: View the shopping cart on target.com. Add "razer naga" to the cart on target.com Image 48: 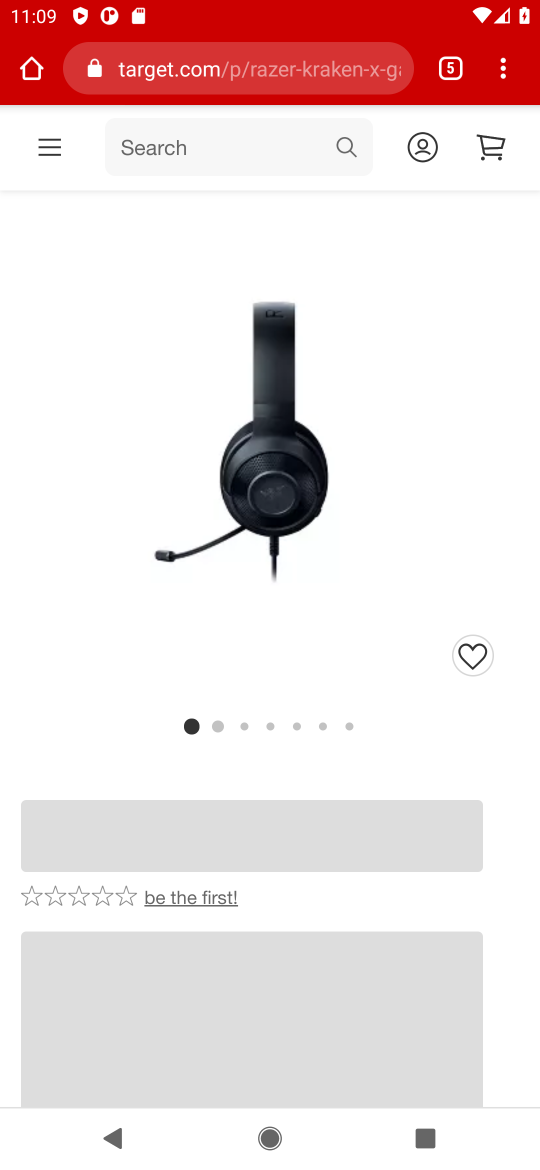
Step 48: drag from (256, 804) to (384, 362)
Your task to perform on an android device: View the shopping cart on target.com. Add "razer naga" to the cart on target.com Image 49: 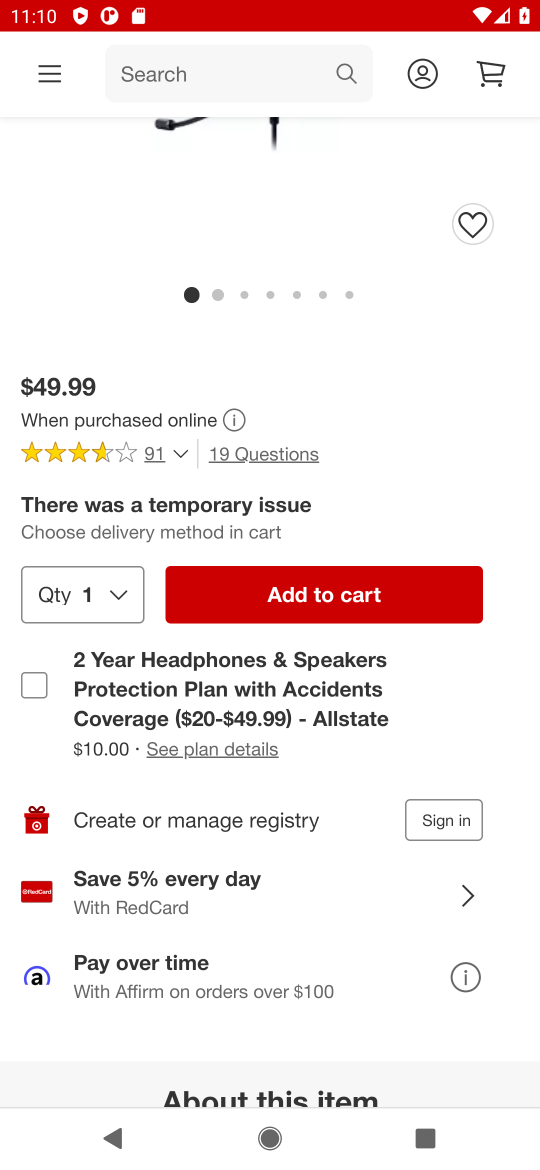
Step 49: click (344, 599)
Your task to perform on an android device: View the shopping cart on target.com. Add "razer naga" to the cart on target.com Image 50: 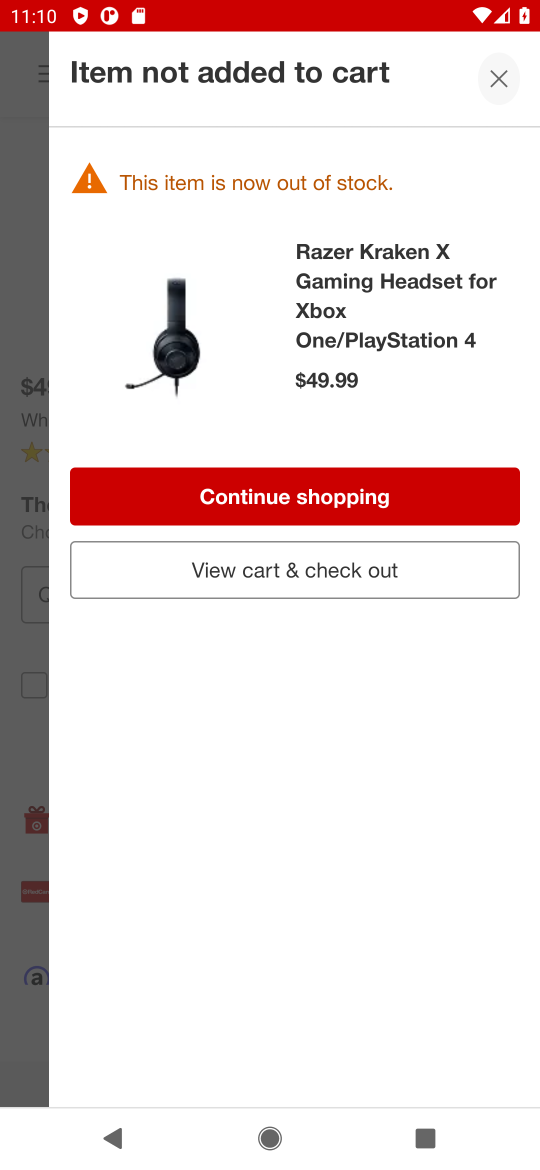
Step 50: click (342, 567)
Your task to perform on an android device: View the shopping cart on target.com. Add "razer naga" to the cart on target.com Image 51: 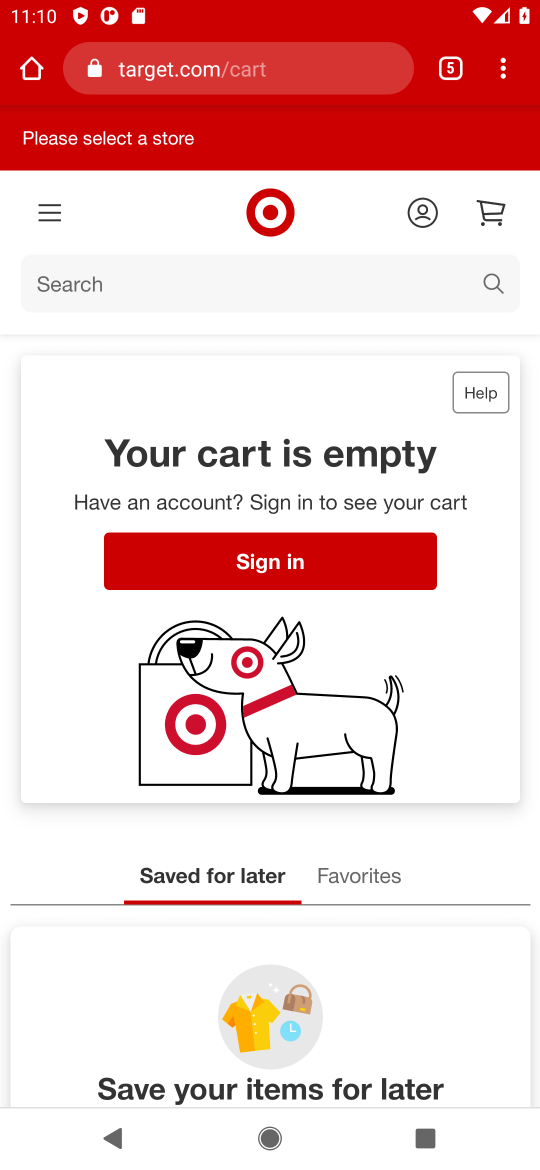
Step 51: task complete